Your task to perform on an android device: Clear the cart on costco.com. Search for "jbl flip 4" on costco.com, select the first entry, add it to the cart, then select checkout. Image 0: 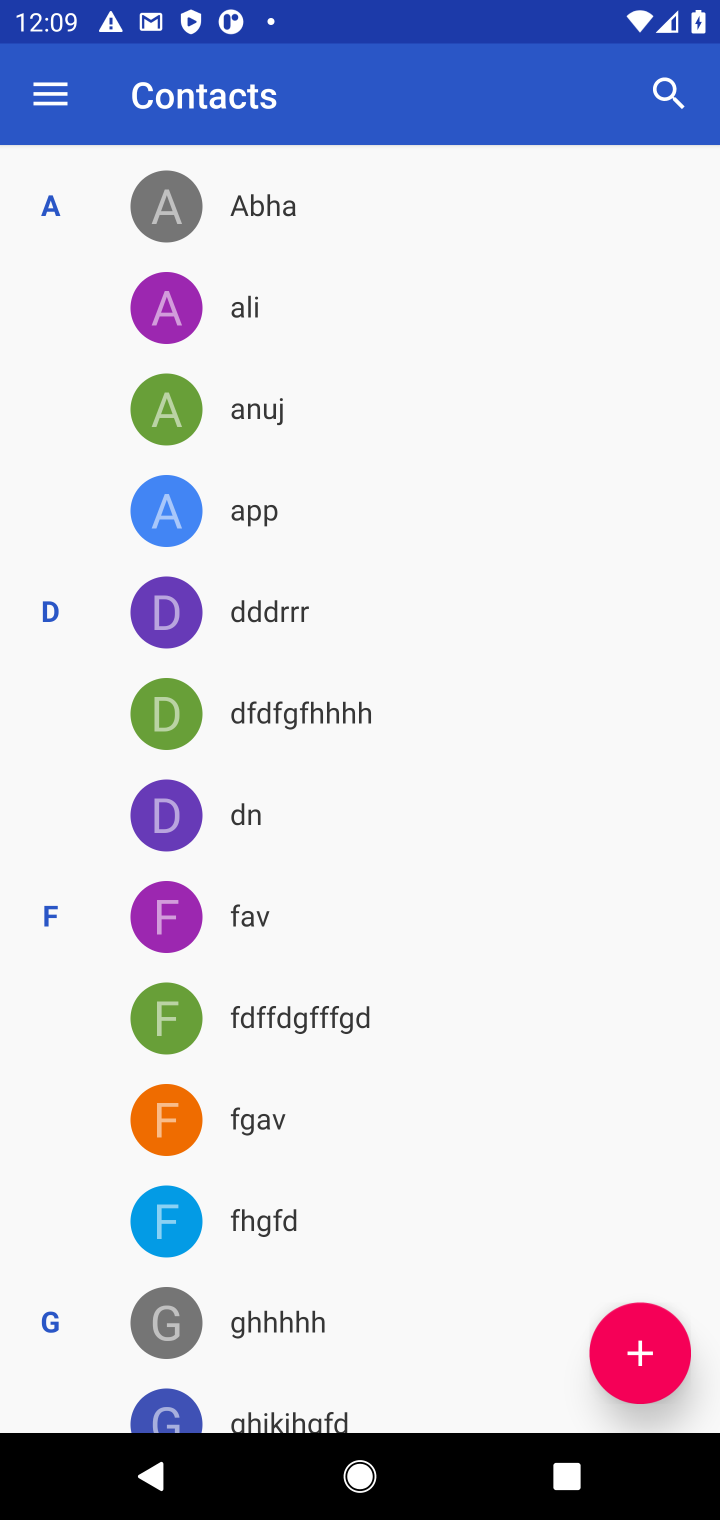
Step 0: press home button
Your task to perform on an android device: Clear the cart on costco.com. Search for "jbl flip 4" on costco.com, select the first entry, add it to the cart, then select checkout. Image 1: 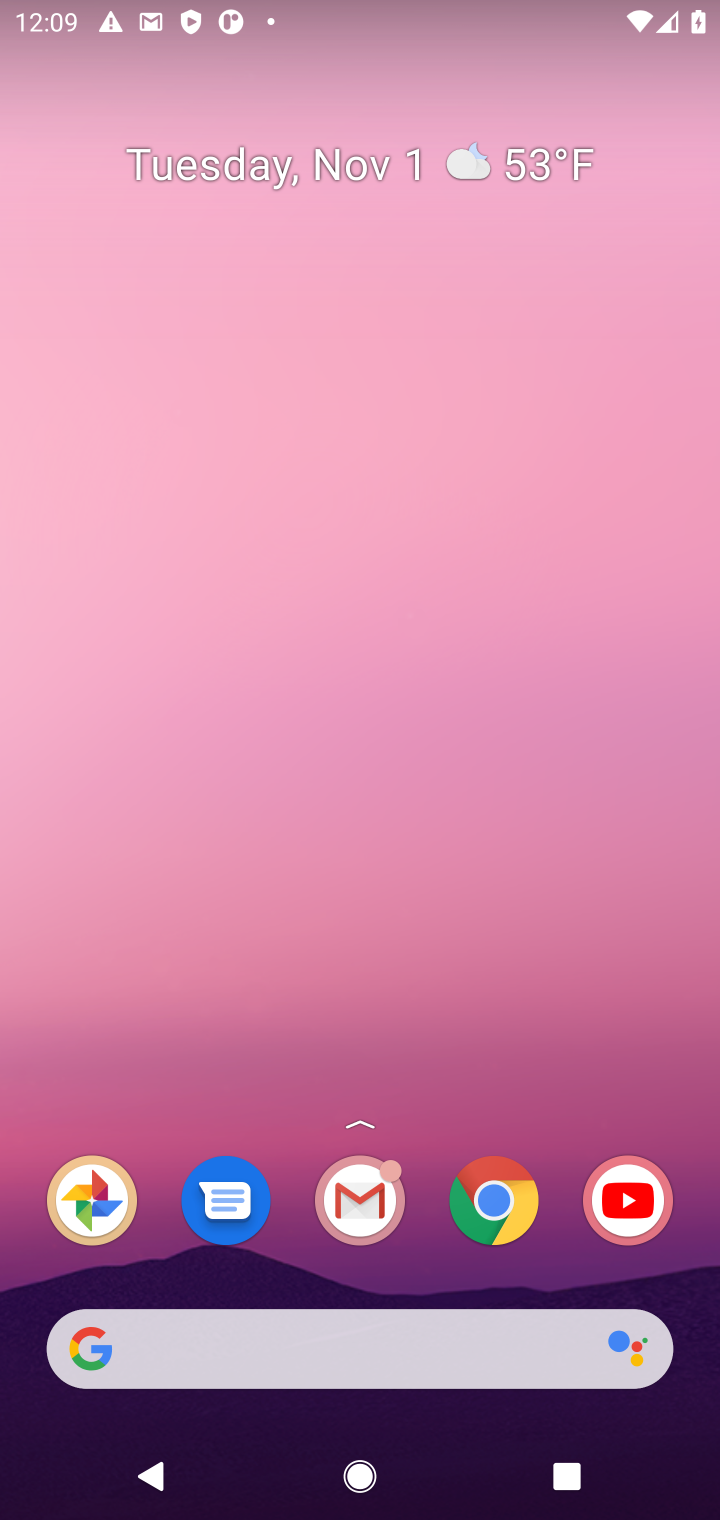
Step 1: click (498, 1203)
Your task to perform on an android device: Clear the cart on costco.com. Search for "jbl flip 4" on costco.com, select the first entry, add it to the cart, then select checkout. Image 2: 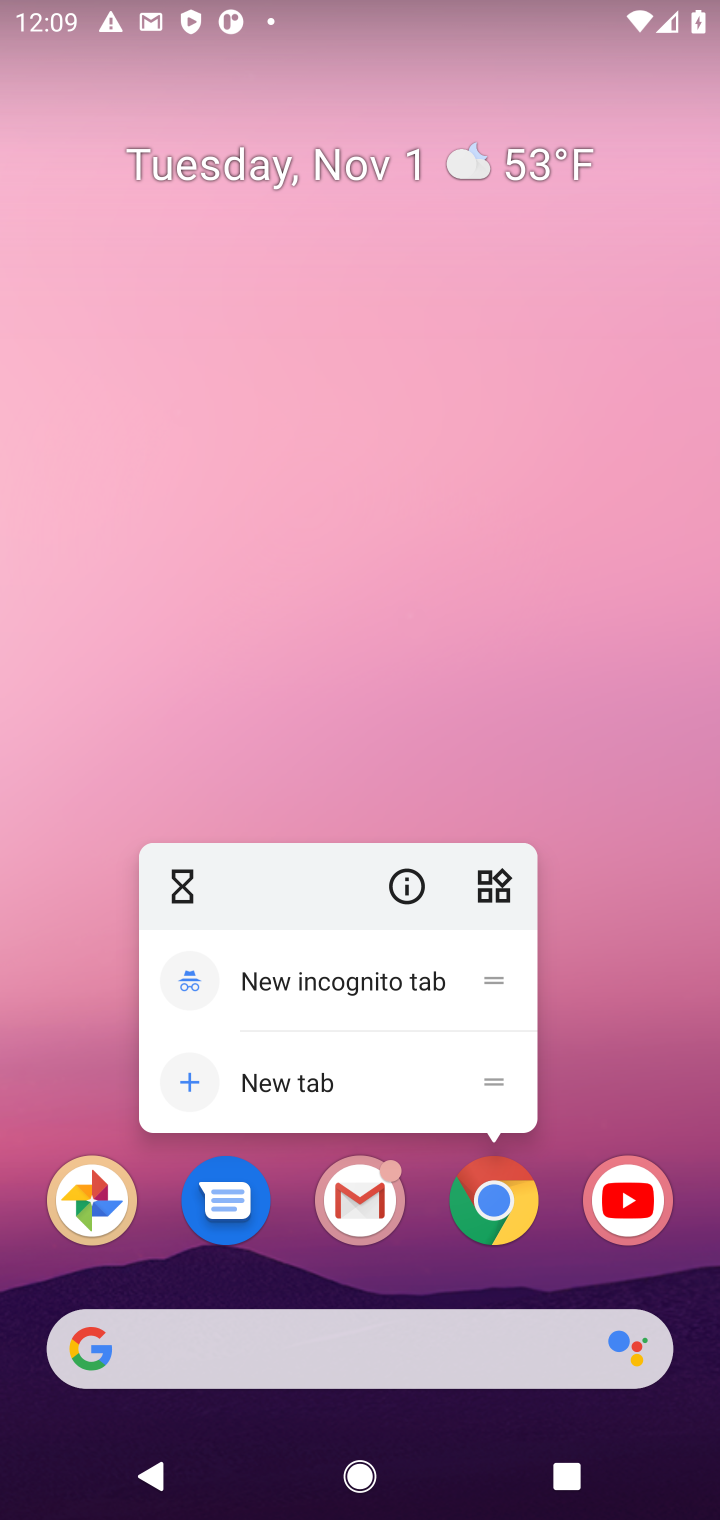
Step 2: click (490, 1213)
Your task to perform on an android device: Clear the cart on costco.com. Search for "jbl flip 4" on costco.com, select the first entry, add it to the cart, then select checkout. Image 3: 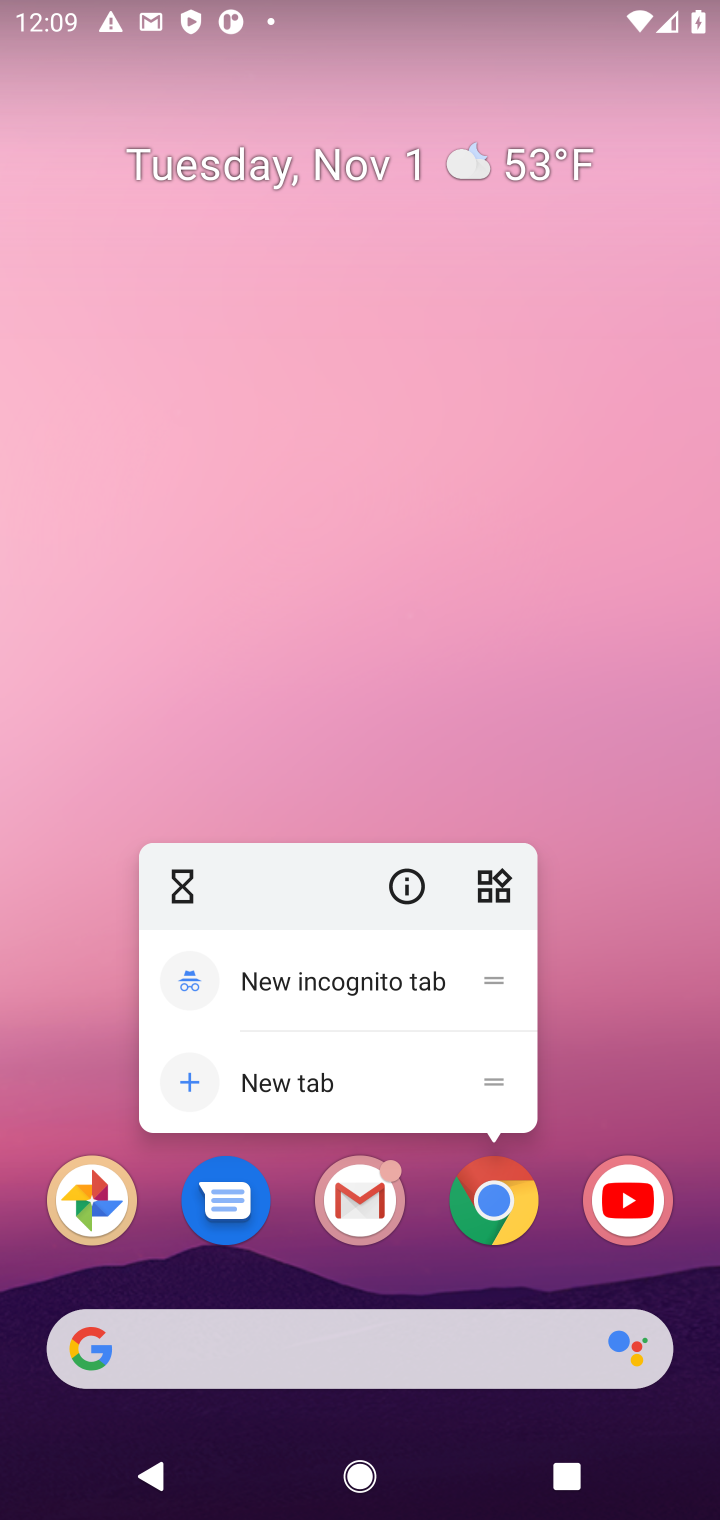
Step 3: click (504, 1241)
Your task to perform on an android device: Clear the cart on costco.com. Search for "jbl flip 4" on costco.com, select the first entry, add it to the cart, then select checkout. Image 4: 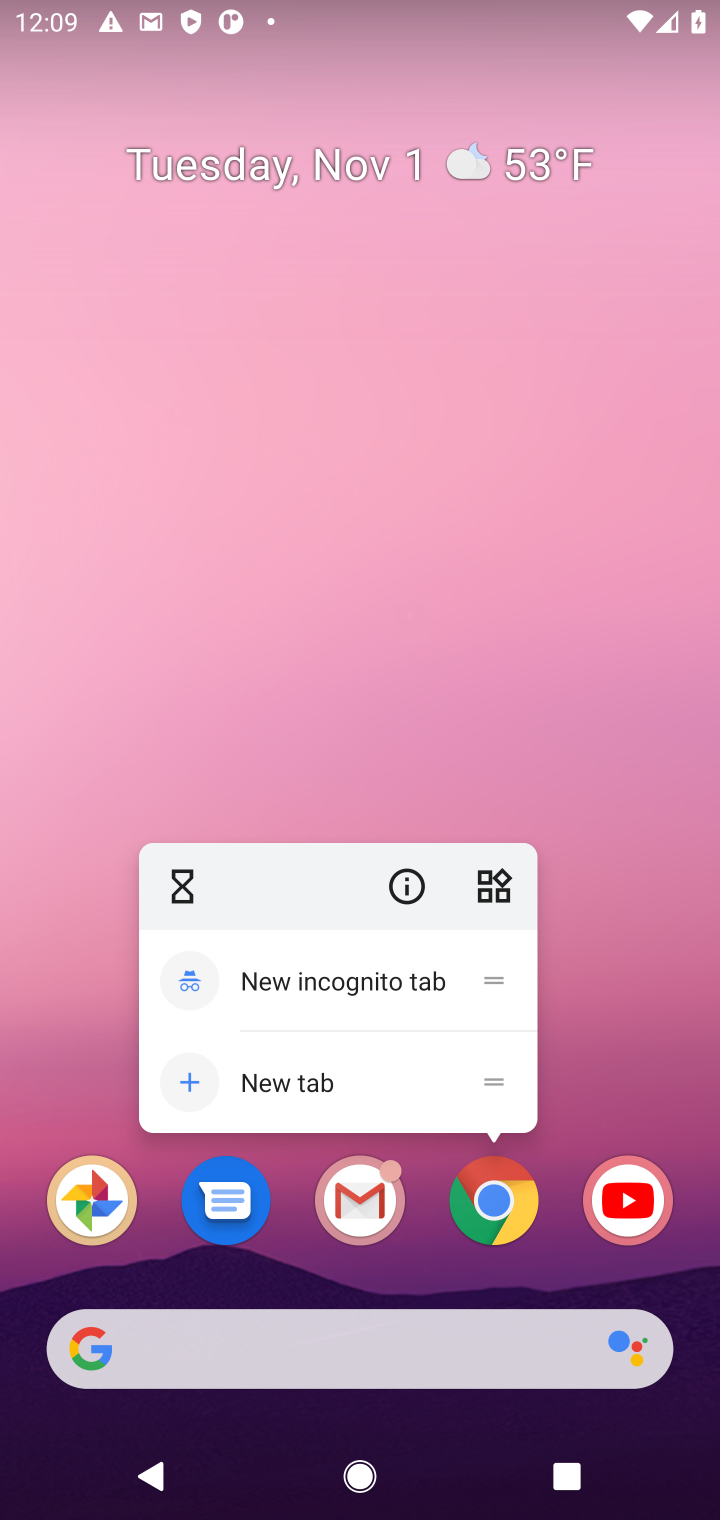
Step 4: click (506, 1221)
Your task to perform on an android device: Clear the cart on costco.com. Search for "jbl flip 4" on costco.com, select the first entry, add it to the cart, then select checkout. Image 5: 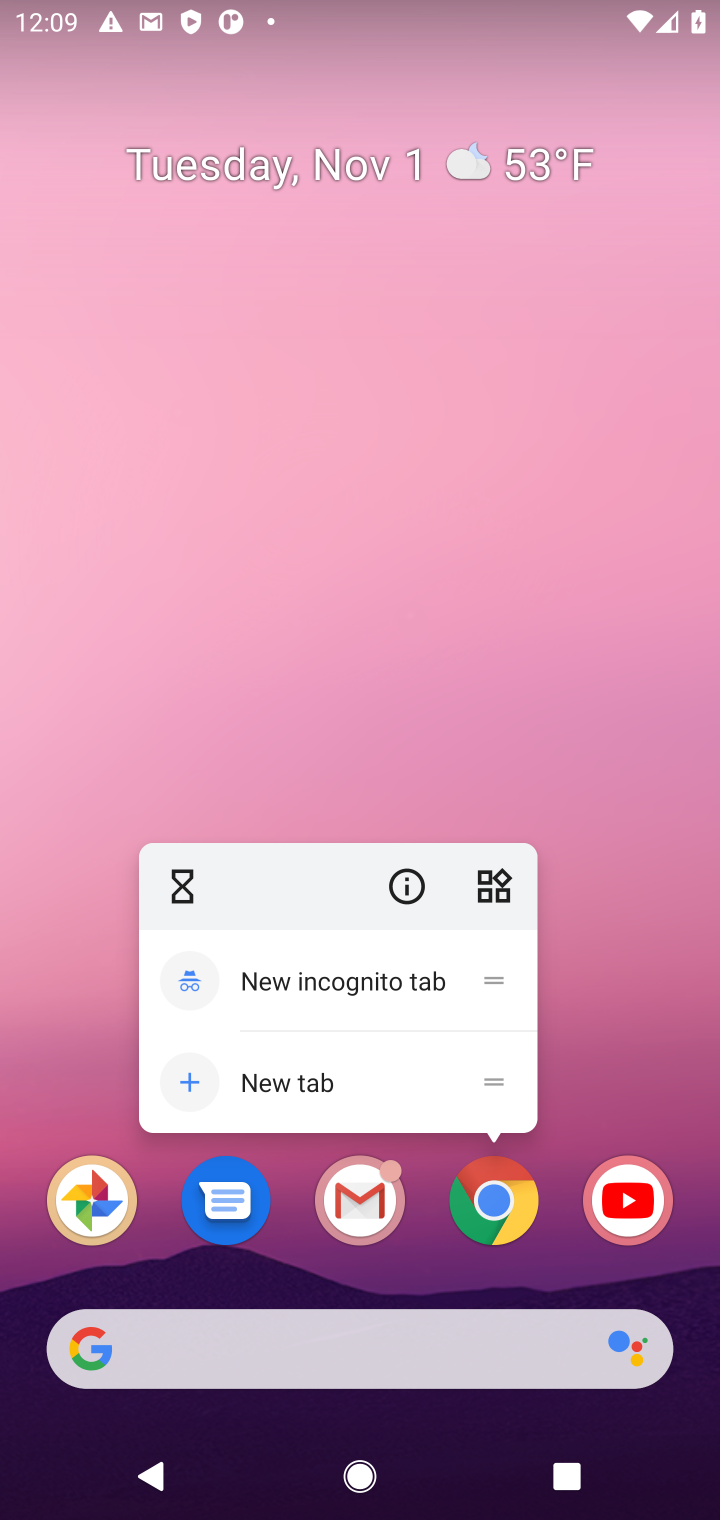
Step 5: click (496, 1205)
Your task to perform on an android device: Clear the cart on costco.com. Search for "jbl flip 4" on costco.com, select the first entry, add it to the cart, then select checkout. Image 6: 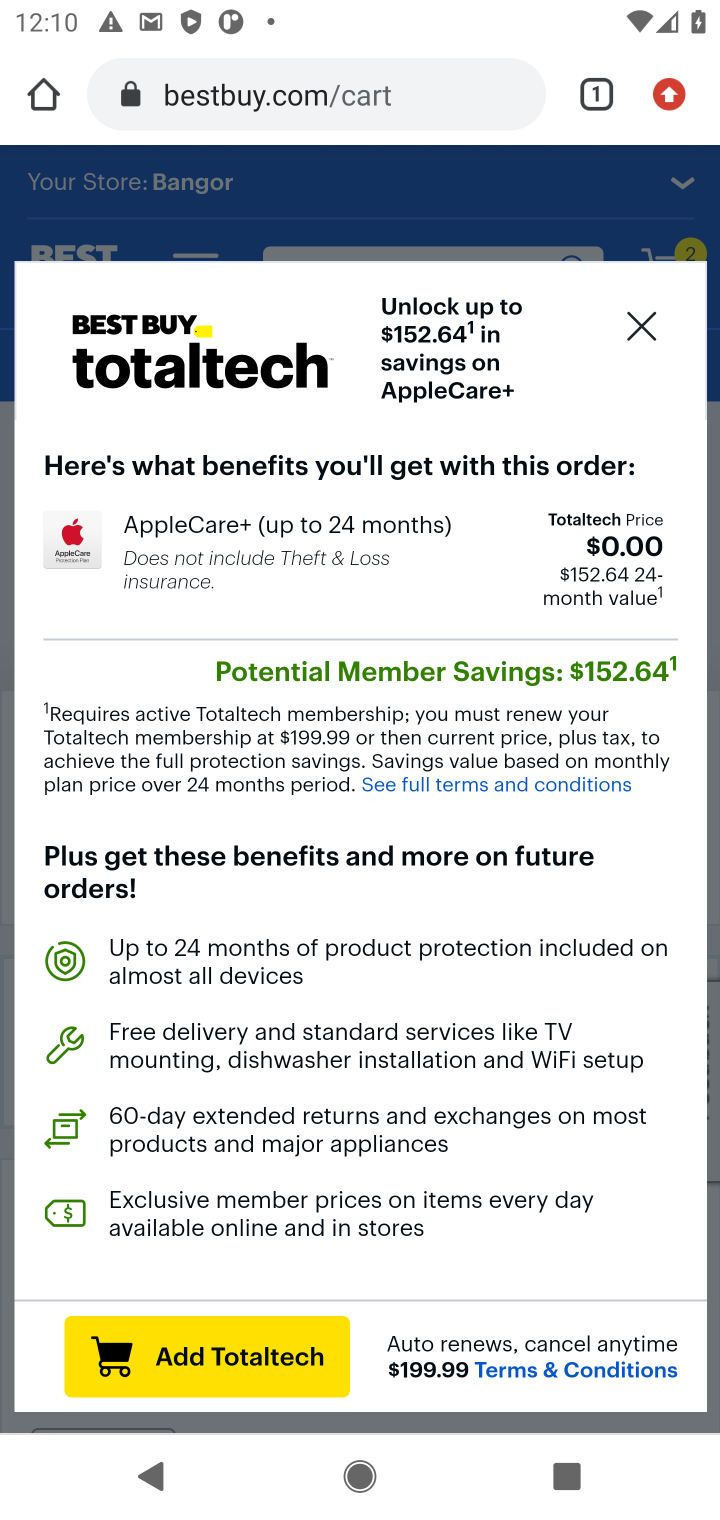
Step 6: click (301, 120)
Your task to perform on an android device: Clear the cart on costco.com. Search for "jbl flip 4" on costco.com, select the first entry, add it to the cart, then select checkout. Image 7: 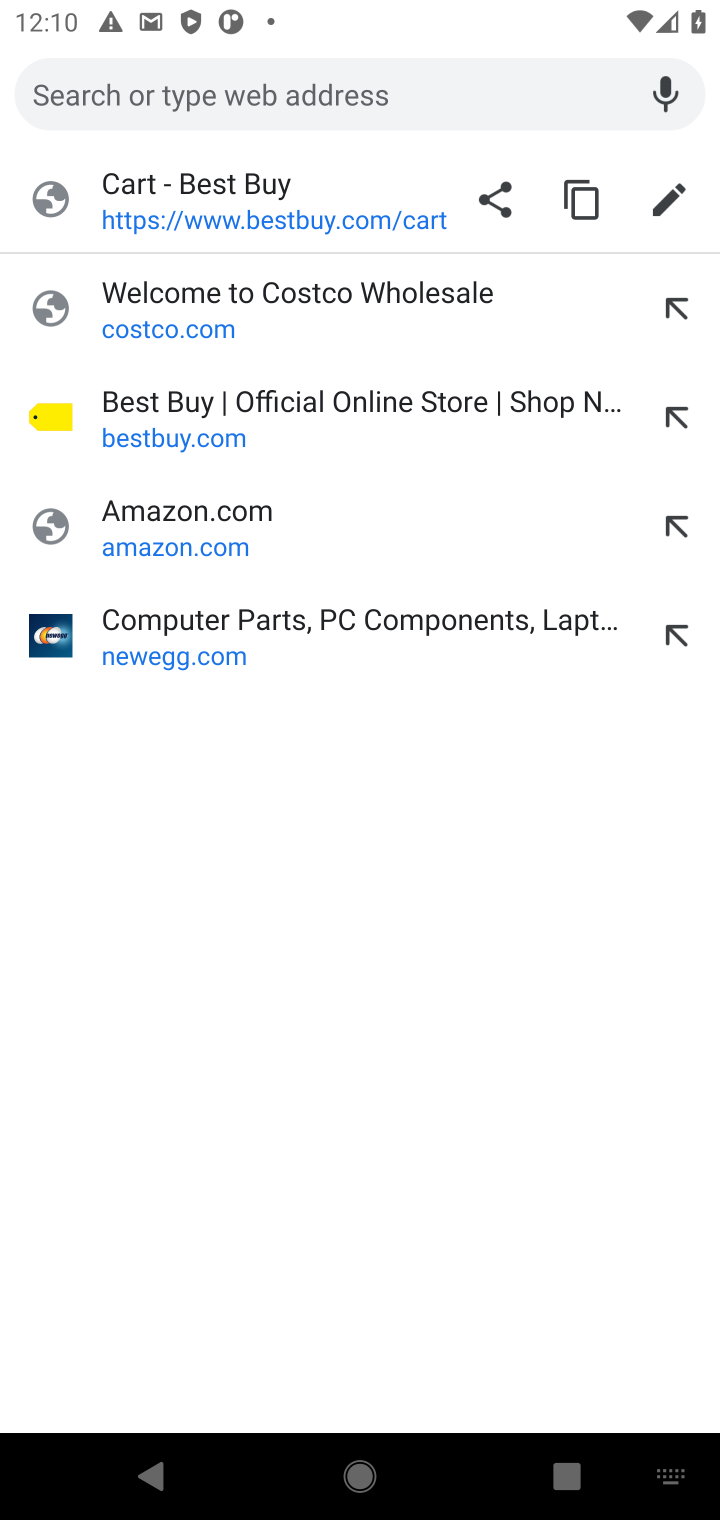
Step 7: click (375, 316)
Your task to perform on an android device: Clear the cart on costco.com. Search for "jbl flip 4" on costco.com, select the first entry, add it to the cart, then select checkout. Image 8: 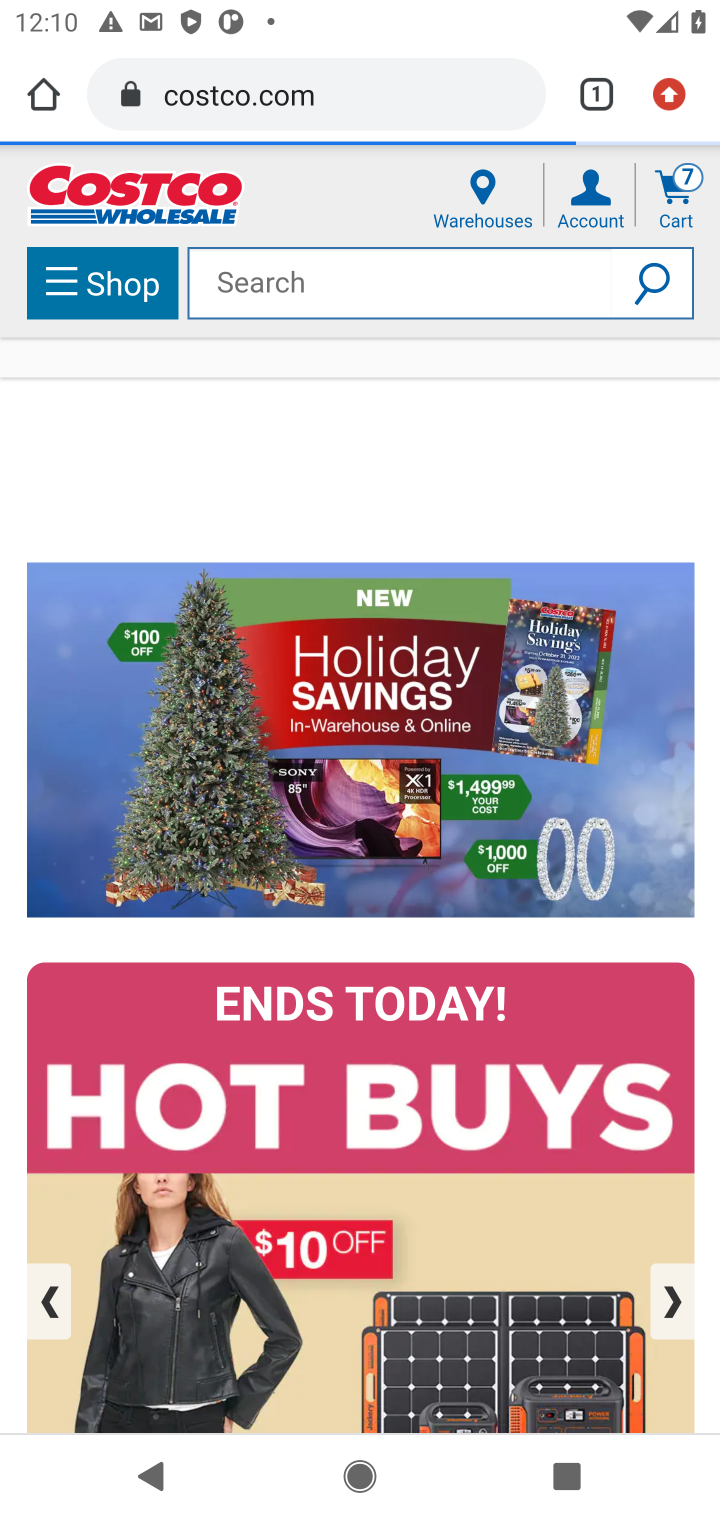
Step 8: click (692, 192)
Your task to perform on an android device: Clear the cart on costco.com. Search for "jbl flip 4" on costco.com, select the first entry, add it to the cart, then select checkout. Image 9: 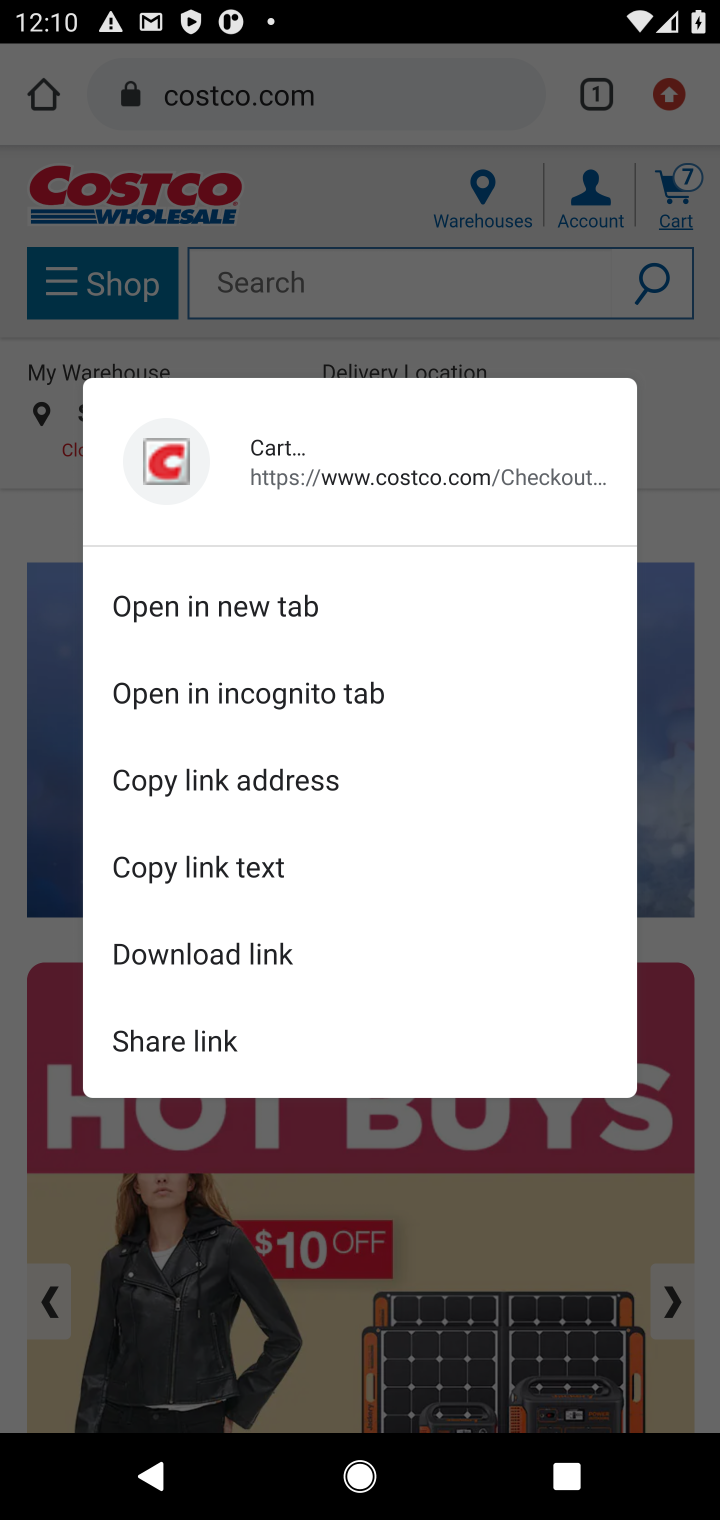
Step 9: click (674, 197)
Your task to perform on an android device: Clear the cart on costco.com. Search for "jbl flip 4" on costco.com, select the first entry, add it to the cart, then select checkout. Image 10: 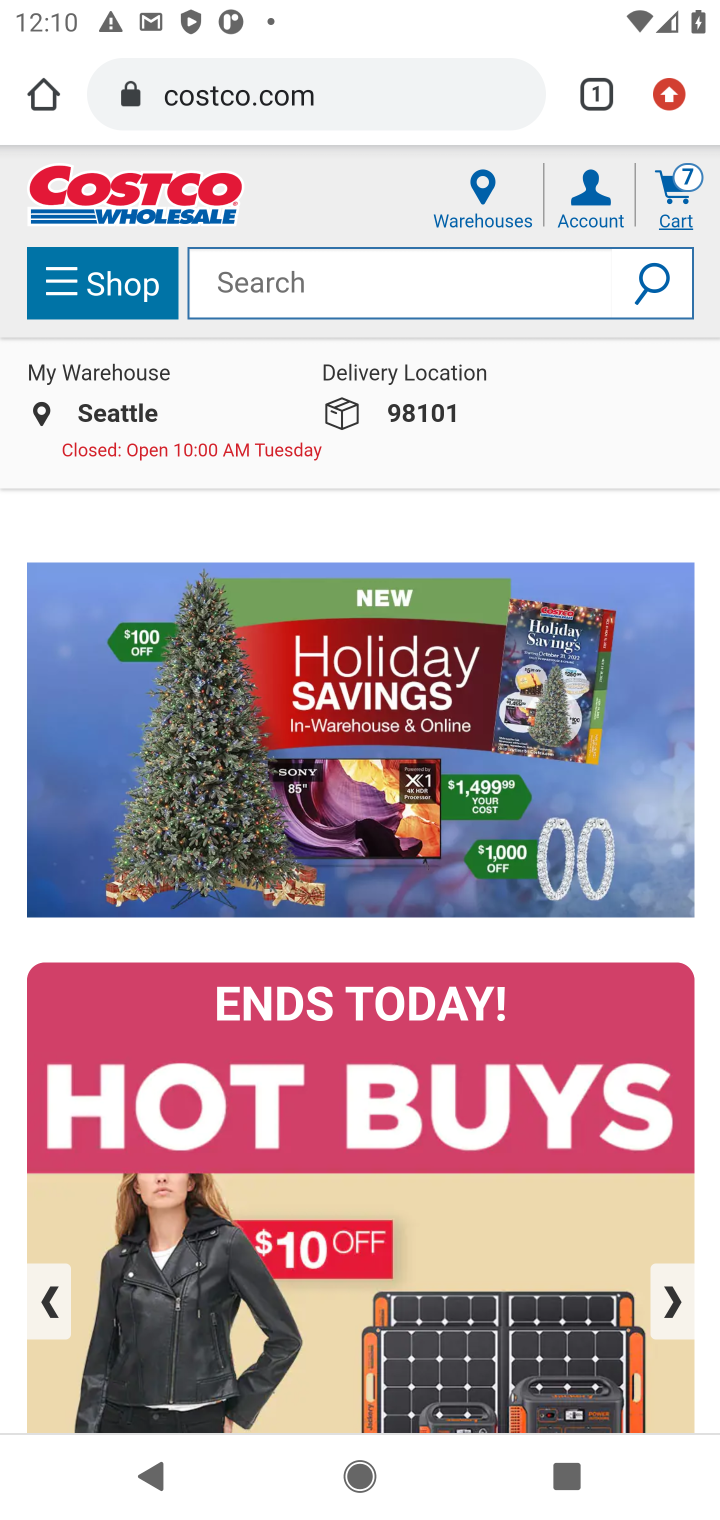
Step 10: click (676, 195)
Your task to perform on an android device: Clear the cart on costco.com. Search for "jbl flip 4" on costco.com, select the first entry, add it to the cart, then select checkout. Image 11: 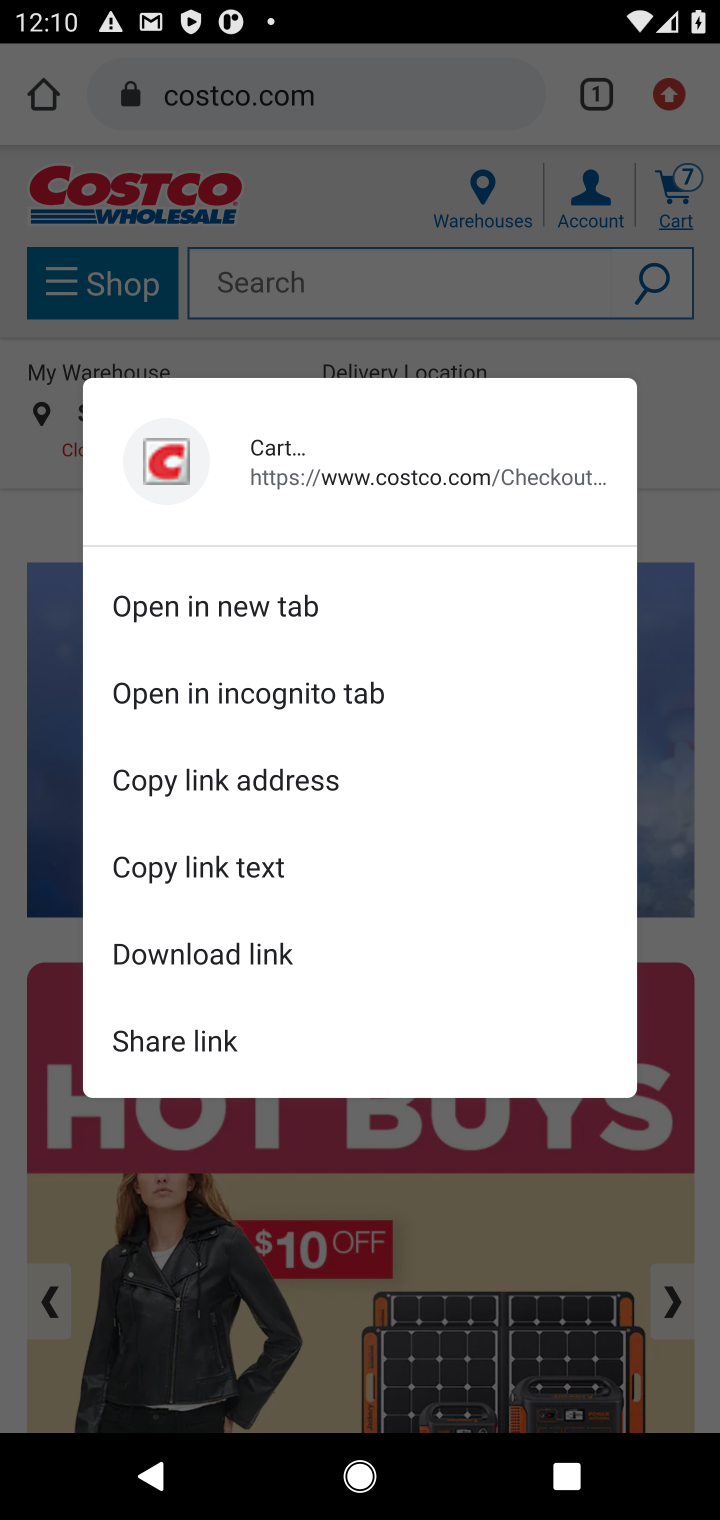
Step 11: click (676, 195)
Your task to perform on an android device: Clear the cart on costco.com. Search for "jbl flip 4" on costco.com, select the first entry, add it to the cart, then select checkout. Image 12: 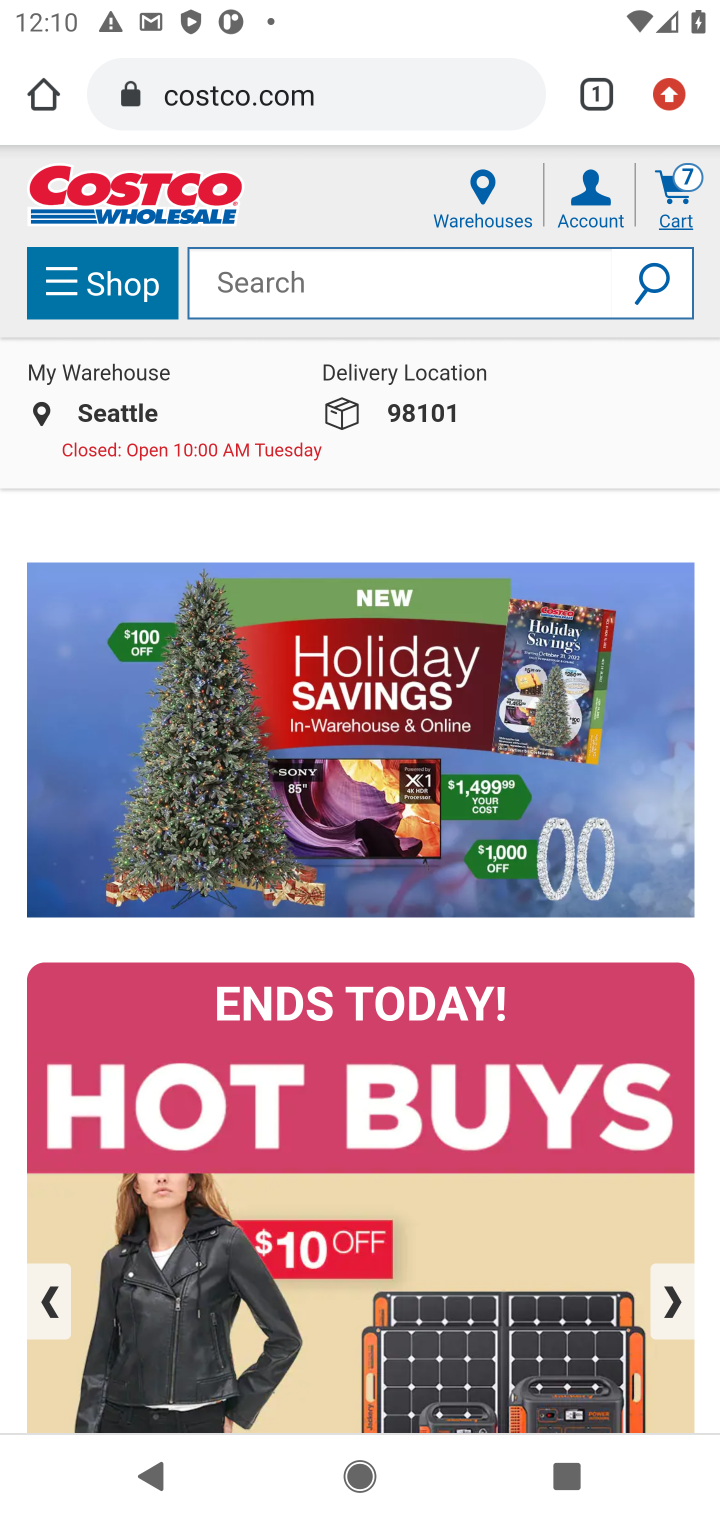
Step 12: click (672, 218)
Your task to perform on an android device: Clear the cart on costco.com. Search for "jbl flip 4" on costco.com, select the first entry, add it to the cart, then select checkout. Image 13: 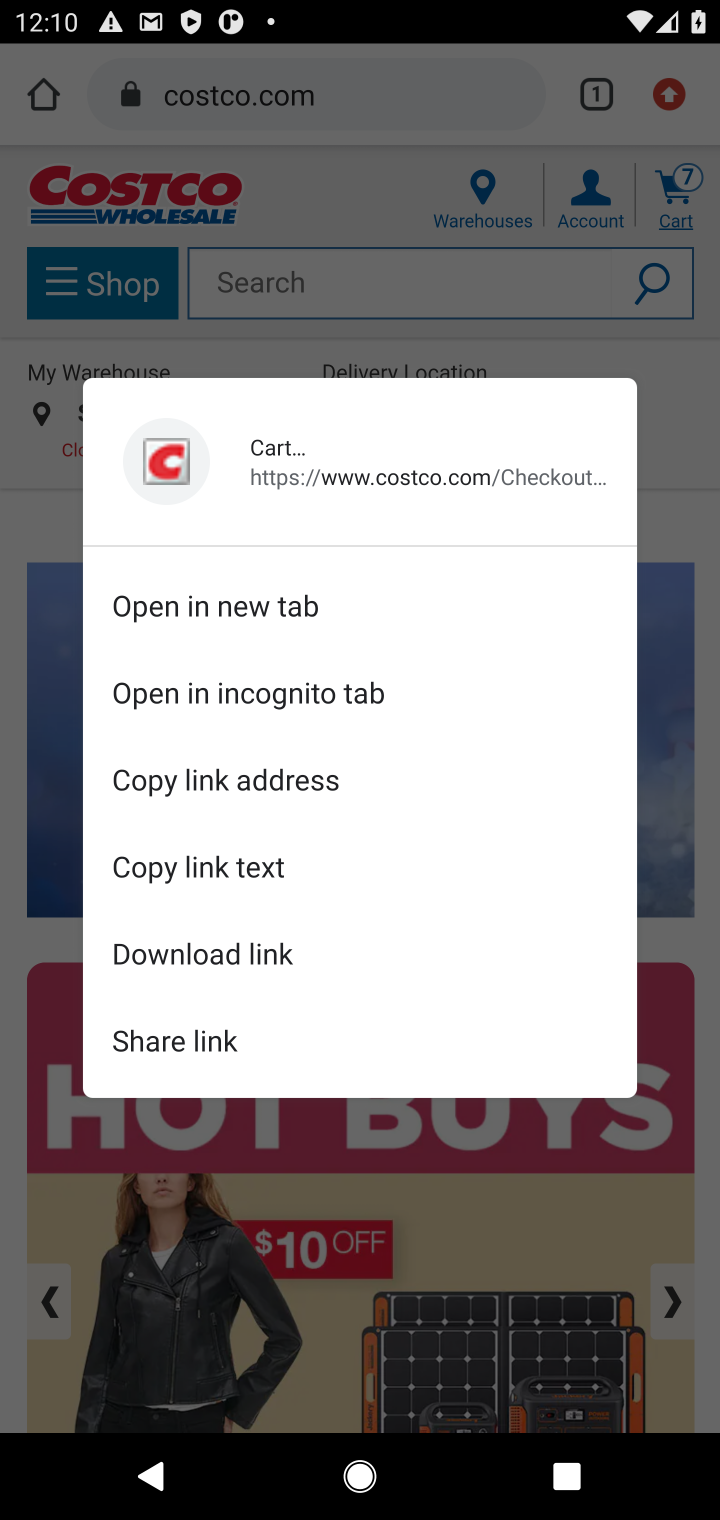
Step 13: click (641, 440)
Your task to perform on an android device: Clear the cart on costco.com. Search for "jbl flip 4" on costco.com, select the first entry, add it to the cart, then select checkout. Image 14: 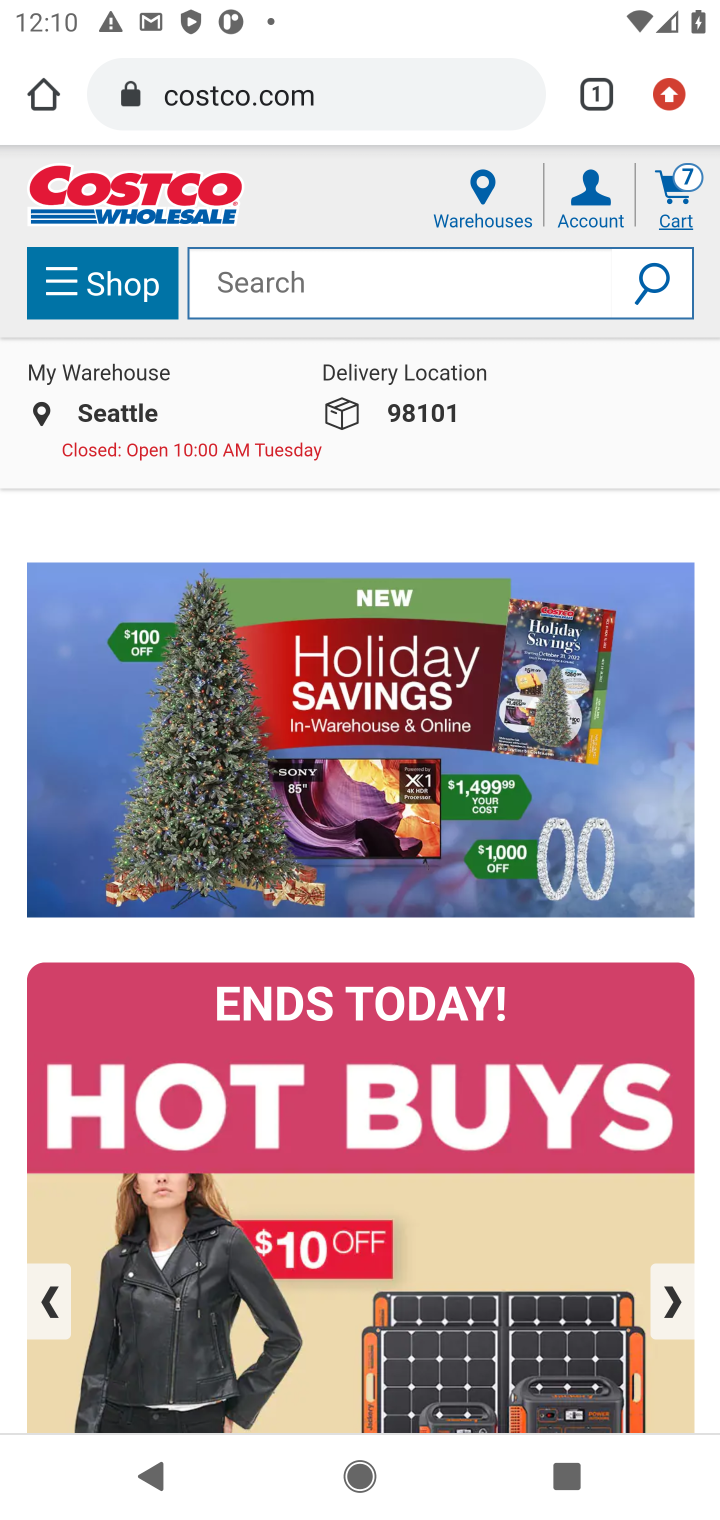
Step 14: click (693, 190)
Your task to perform on an android device: Clear the cart on costco.com. Search for "jbl flip 4" on costco.com, select the first entry, add it to the cart, then select checkout. Image 15: 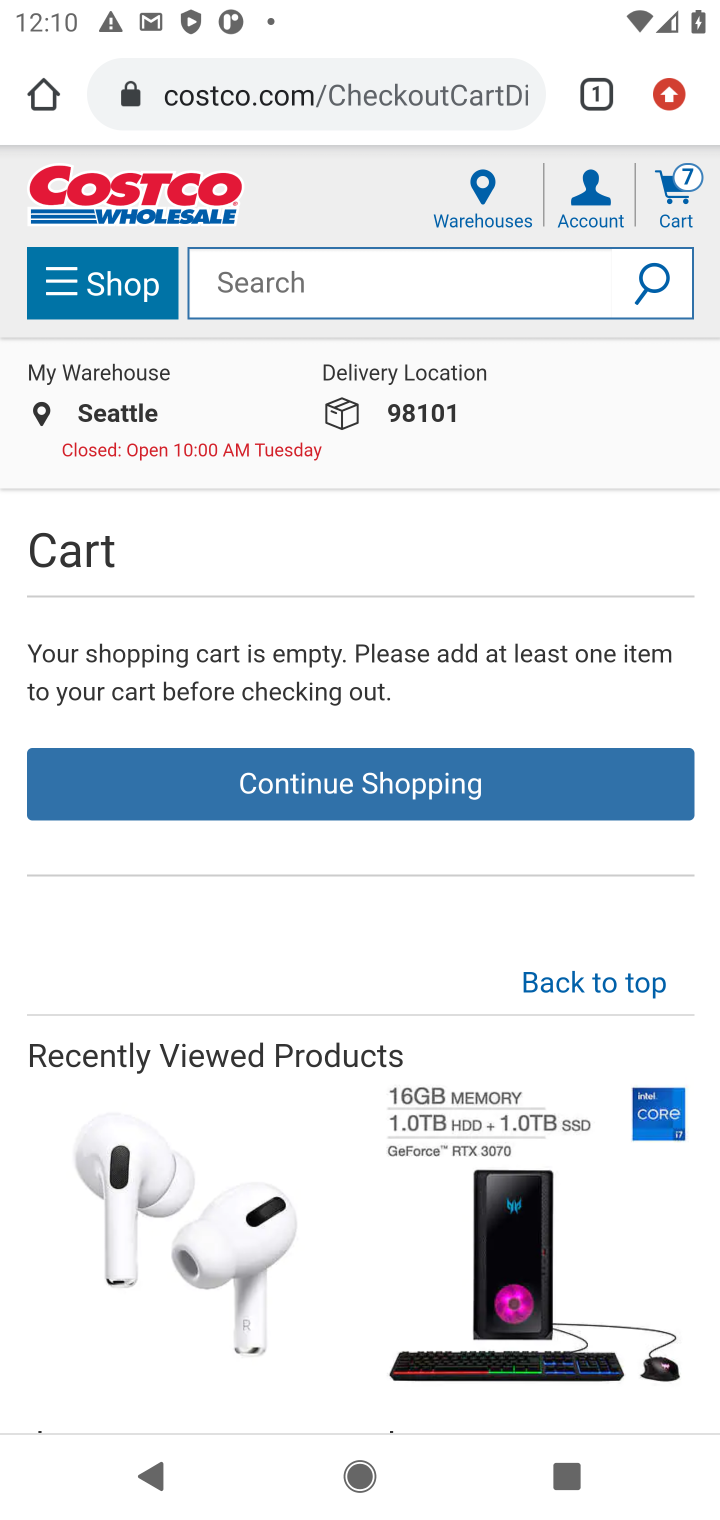
Step 15: drag from (442, 1159) to (456, 481)
Your task to perform on an android device: Clear the cart on costco.com. Search for "jbl flip 4" on costco.com, select the first entry, add it to the cart, then select checkout. Image 16: 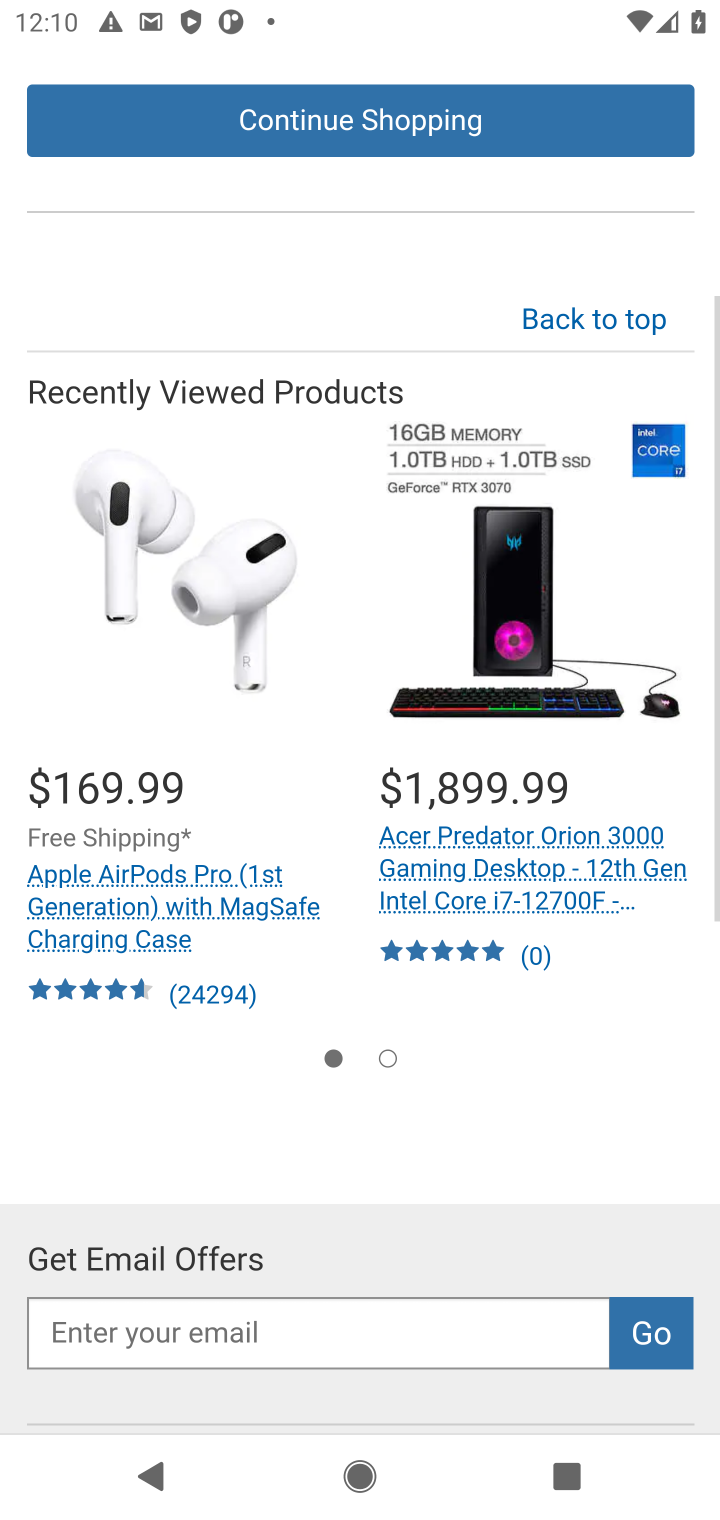
Step 16: drag from (635, 659) to (19, 641)
Your task to perform on an android device: Clear the cart on costco.com. Search for "jbl flip 4" on costco.com, select the first entry, add it to the cart, then select checkout. Image 17: 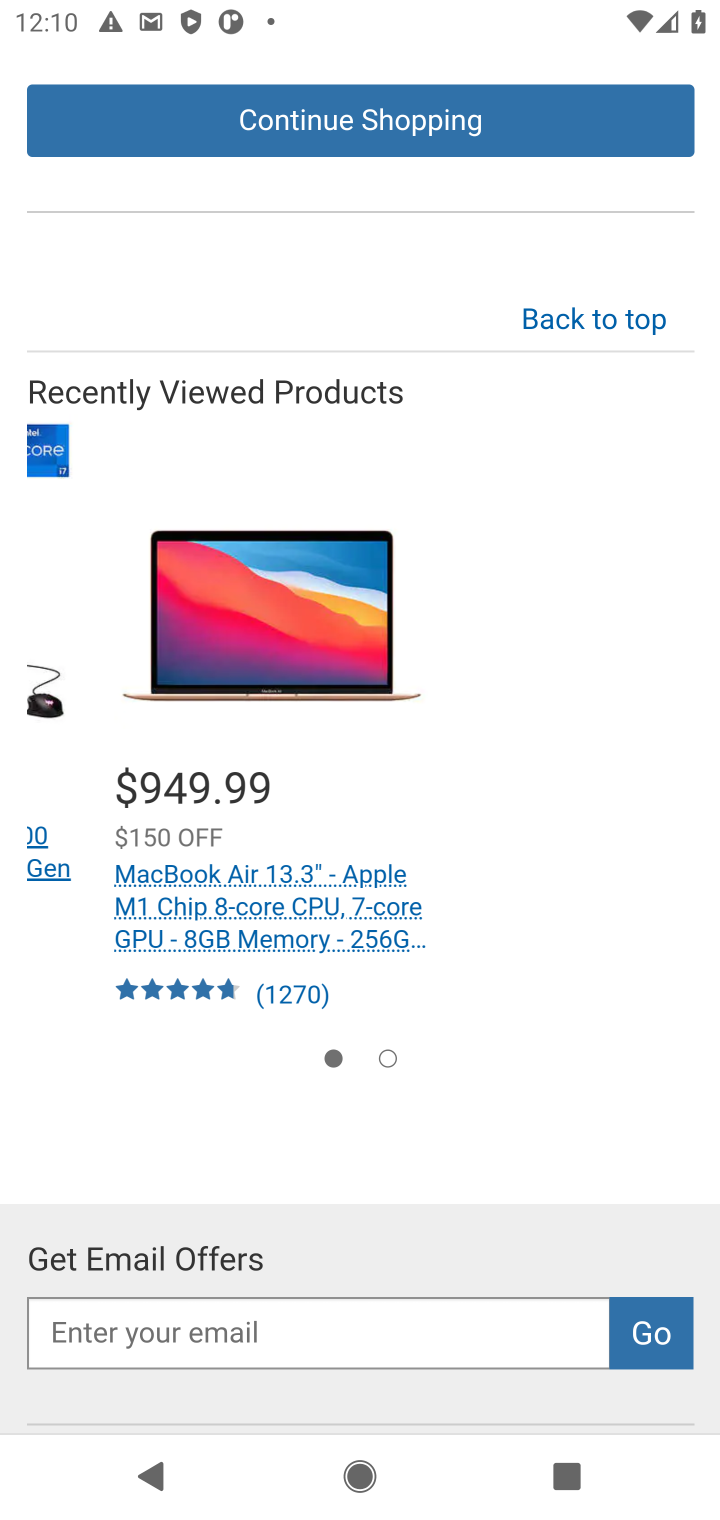
Step 17: drag from (671, 691) to (4, 661)
Your task to perform on an android device: Clear the cart on costco.com. Search for "jbl flip 4" on costco.com, select the first entry, add it to the cart, then select checkout. Image 18: 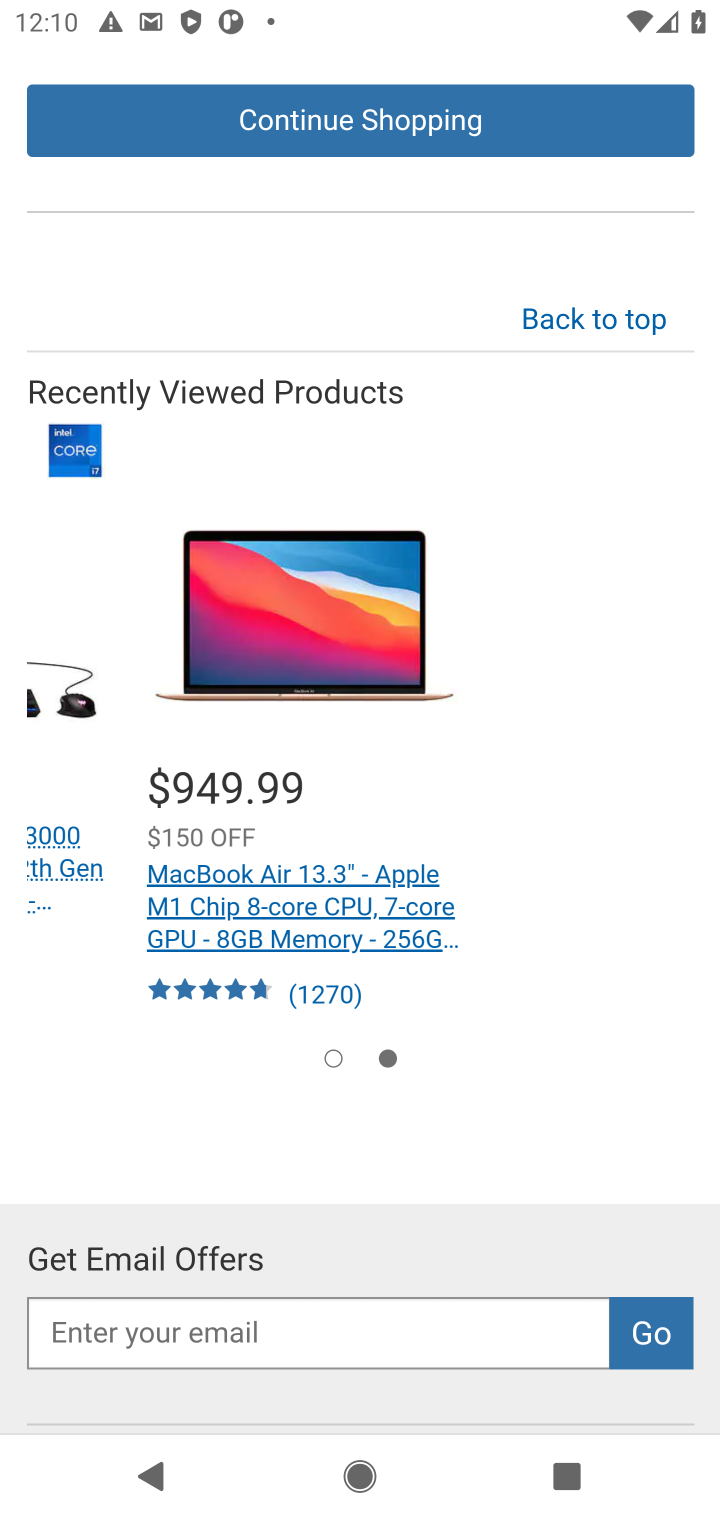
Step 18: drag from (441, 334) to (436, 1306)
Your task to perform on an android device: Clear the cart on costco.com. Search for "jbl flip 4" on costco.com, select the first entry, add it to the cart, then select checkout. Image 19: 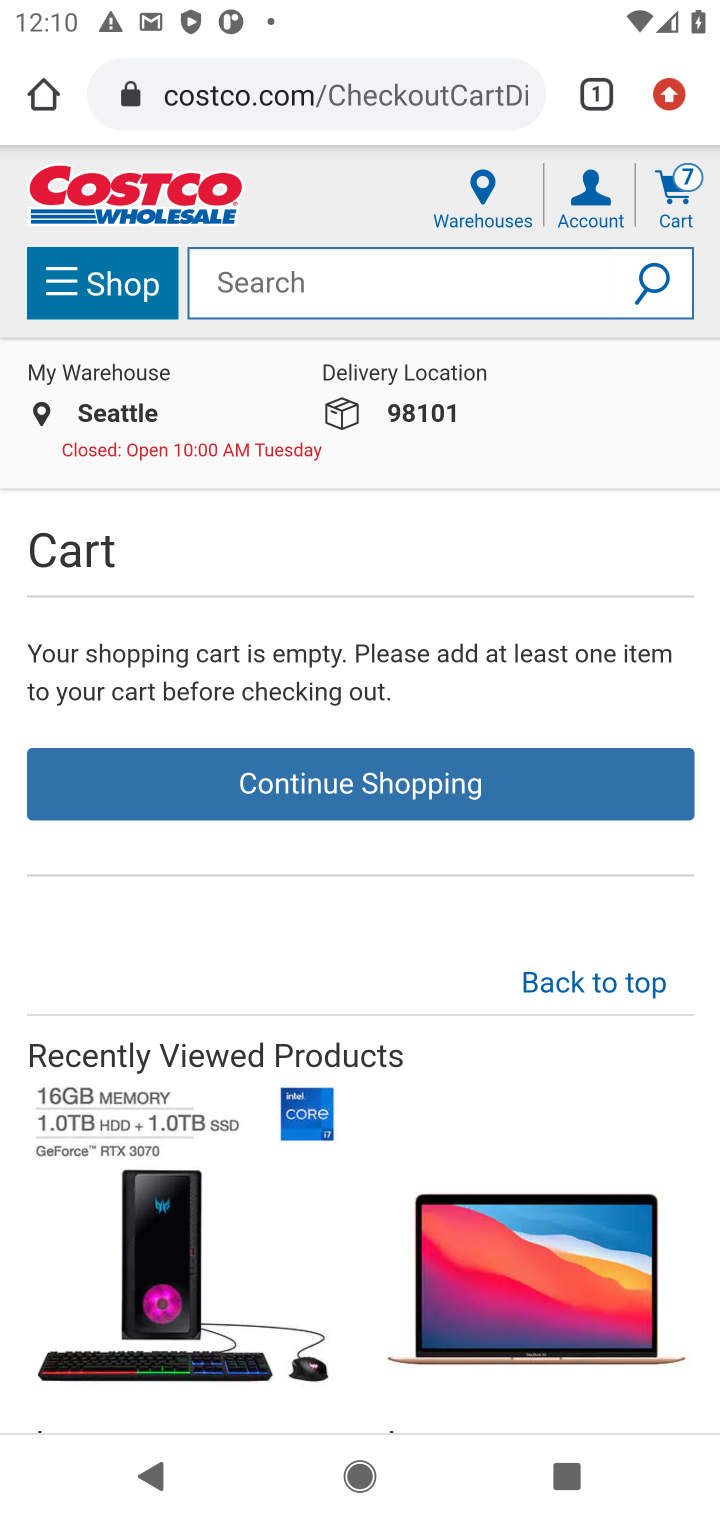
Step 19: click (682, 219)
Your task to perform on an android device: Clear the cart on costco.com. Search for "jbl flip 4" on costco.com, select the first entry, add it to the cart, then select checkout. Image 20: 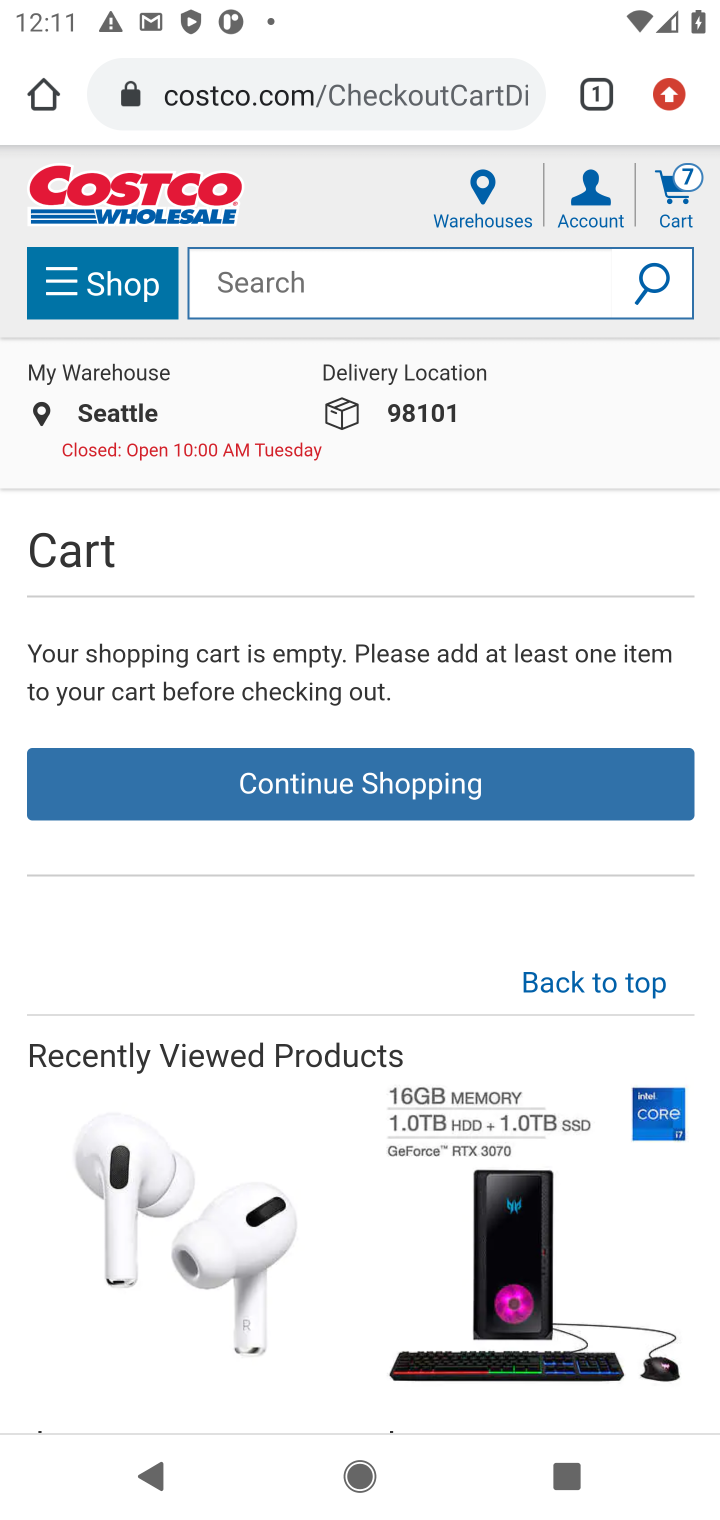
Step 20: click (228, 1204)
Your task to perform on an android device: Clear the cart on costco.com. Search for "jbl flip 4" on costco.com, select the first entry, add it to the cart, then select checkout. Image 21: 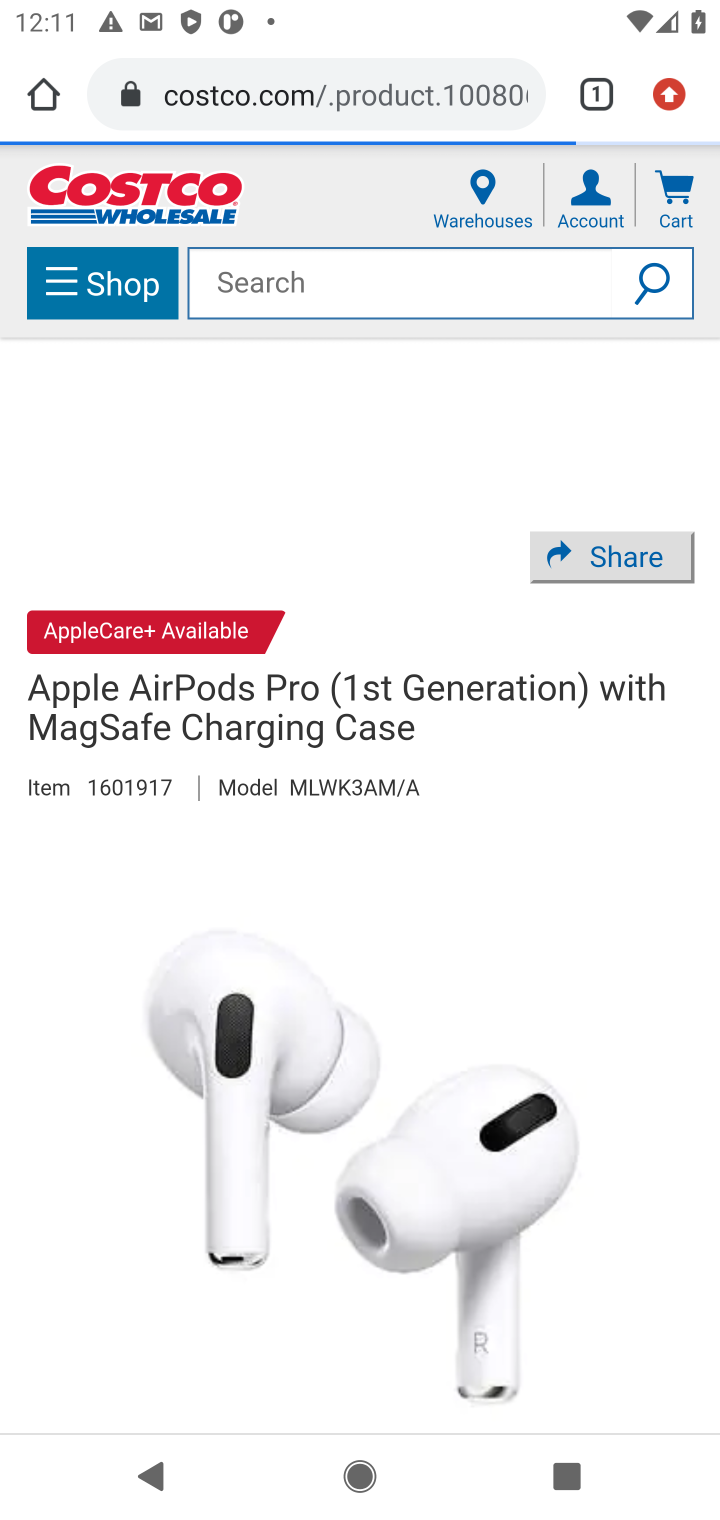
Step 21: drag from (226, 1197) to (256, 323)
Your task to perform on an android device: Clear the cart on costco.com. Search for "jbl flip 4" on costco.com, select the first entry, add it to the cart, then select checkout. Image 22: 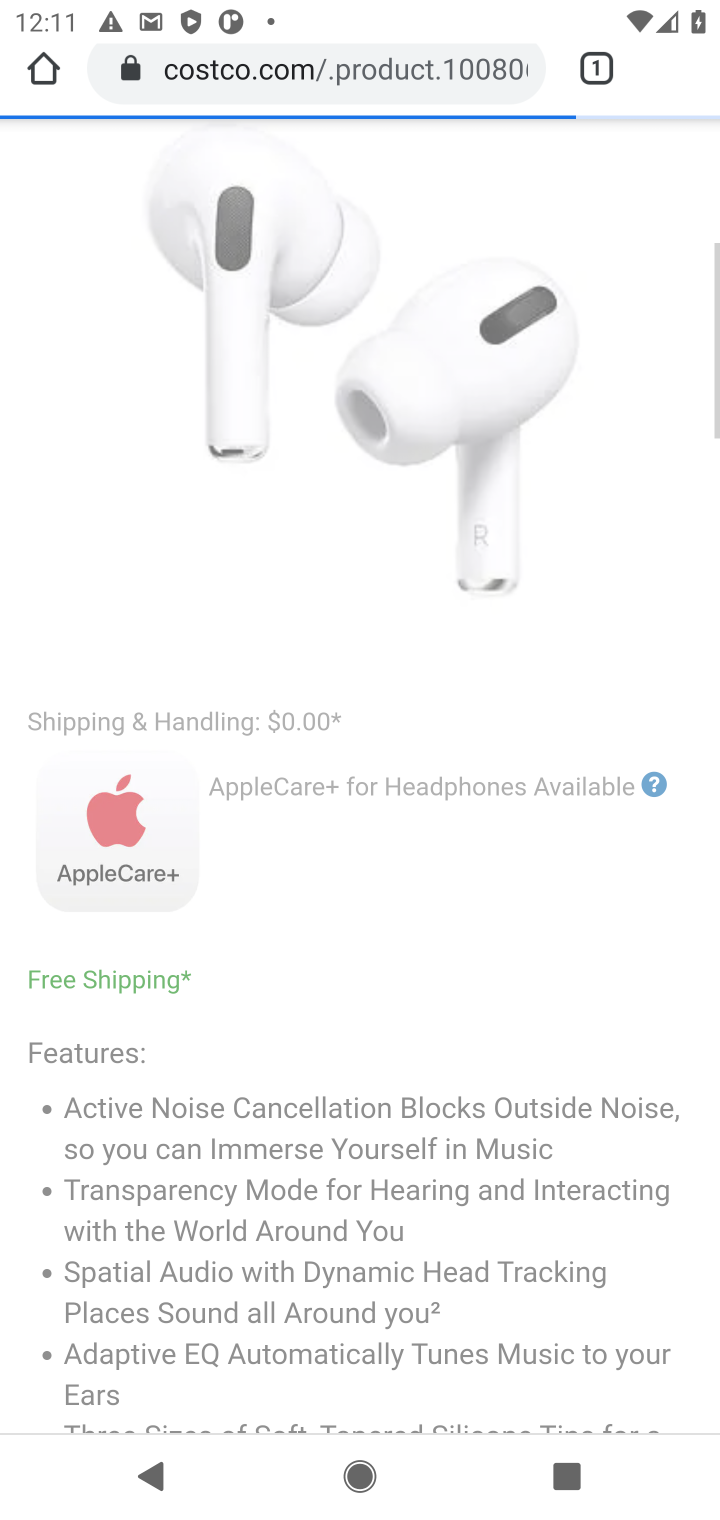
Step 22: drag from (302, 1136) to (474, 185)
Your task to perform on an android device: Clear the cart on costco.com. Search for "jbl flip 4" on costco.com, select the first entry, add it to the cart, then select checkout. Image 23: 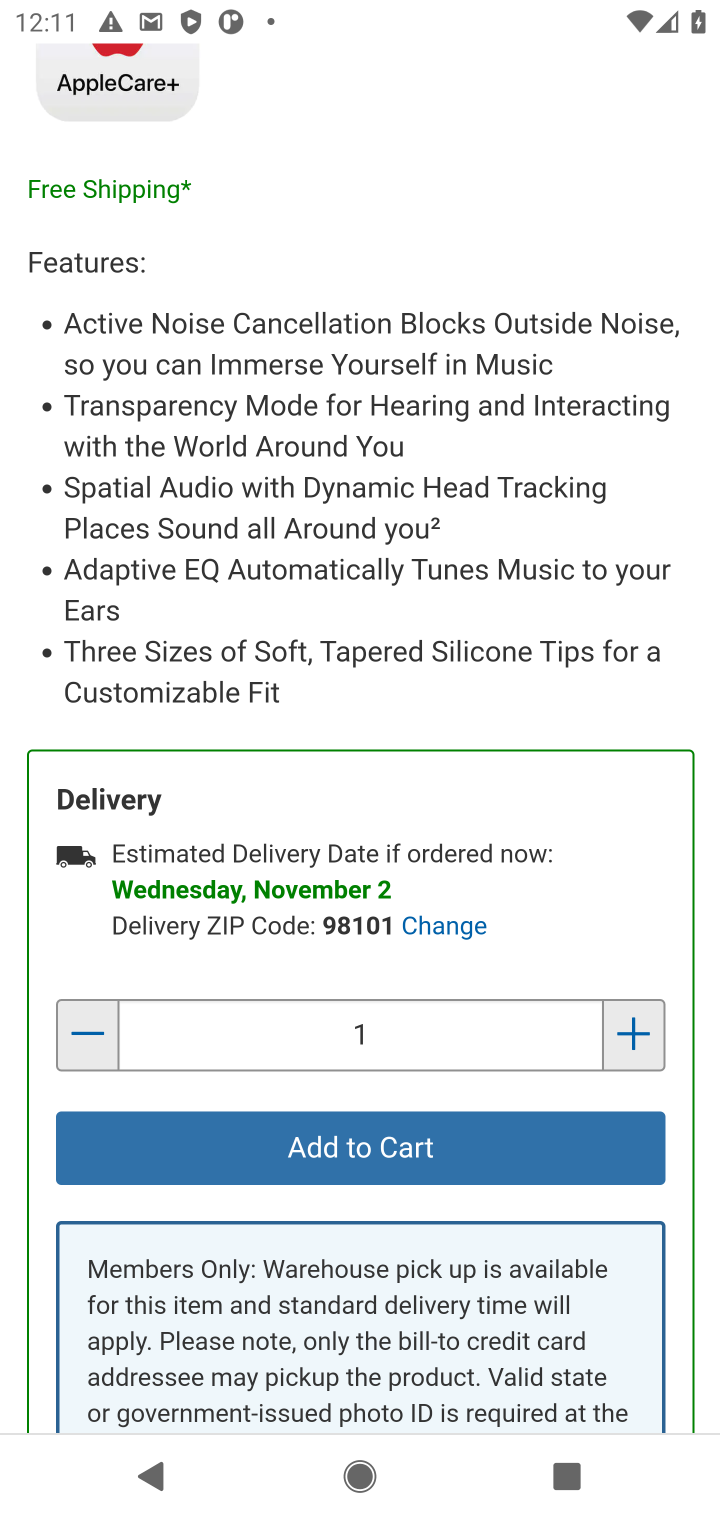
Step 23: click (80, 1028)
Your task to perform on an android device: Clear the cart on costco.com. Search for "jbl flip 4" on costco.com, select the first entry, add it to the cart, then select checkout. Image 24: 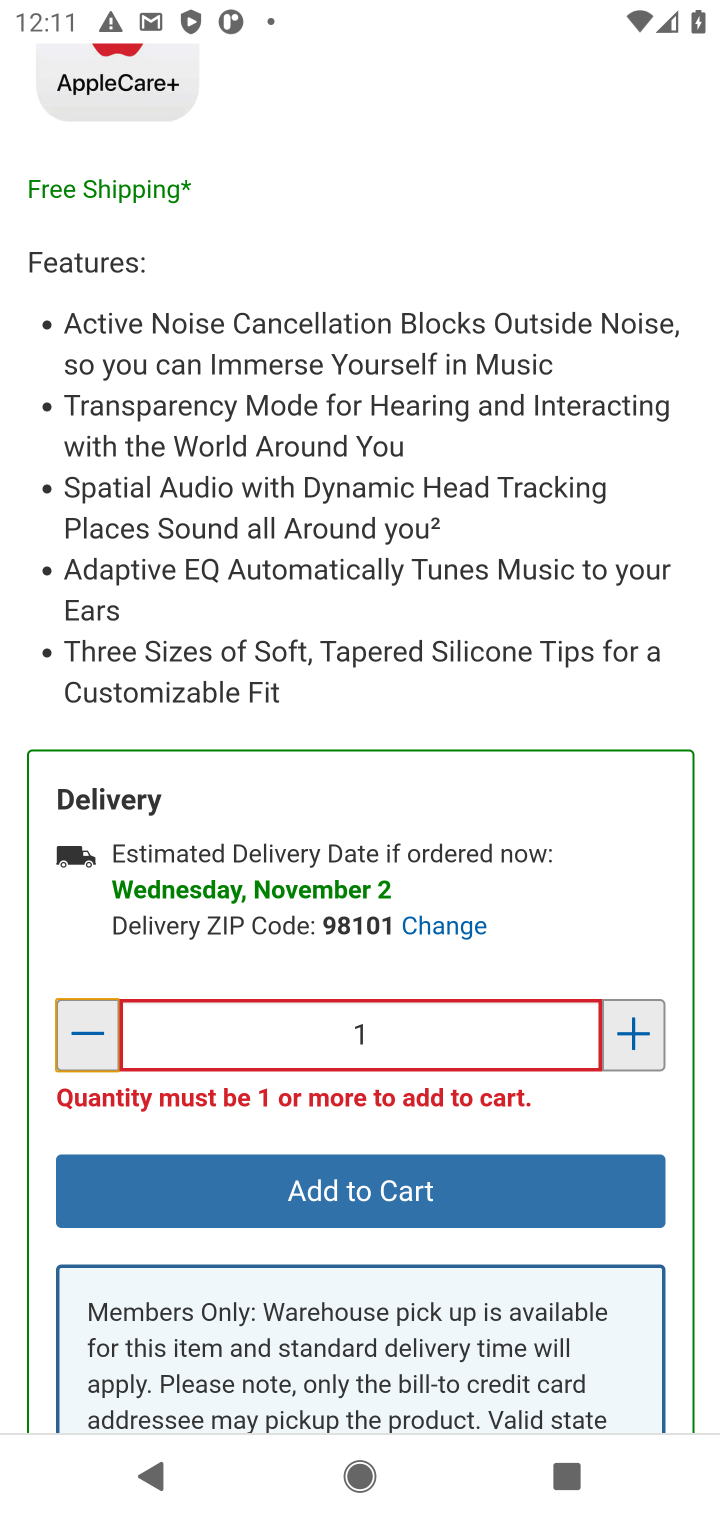
Step 24: click (80, 1028)
Your task to perform on an android device: Clear the cart on costco.com. Search for "jbl flip 4" on costco.com, select the first entry, add it to the cart, then select checkout. Image 25: 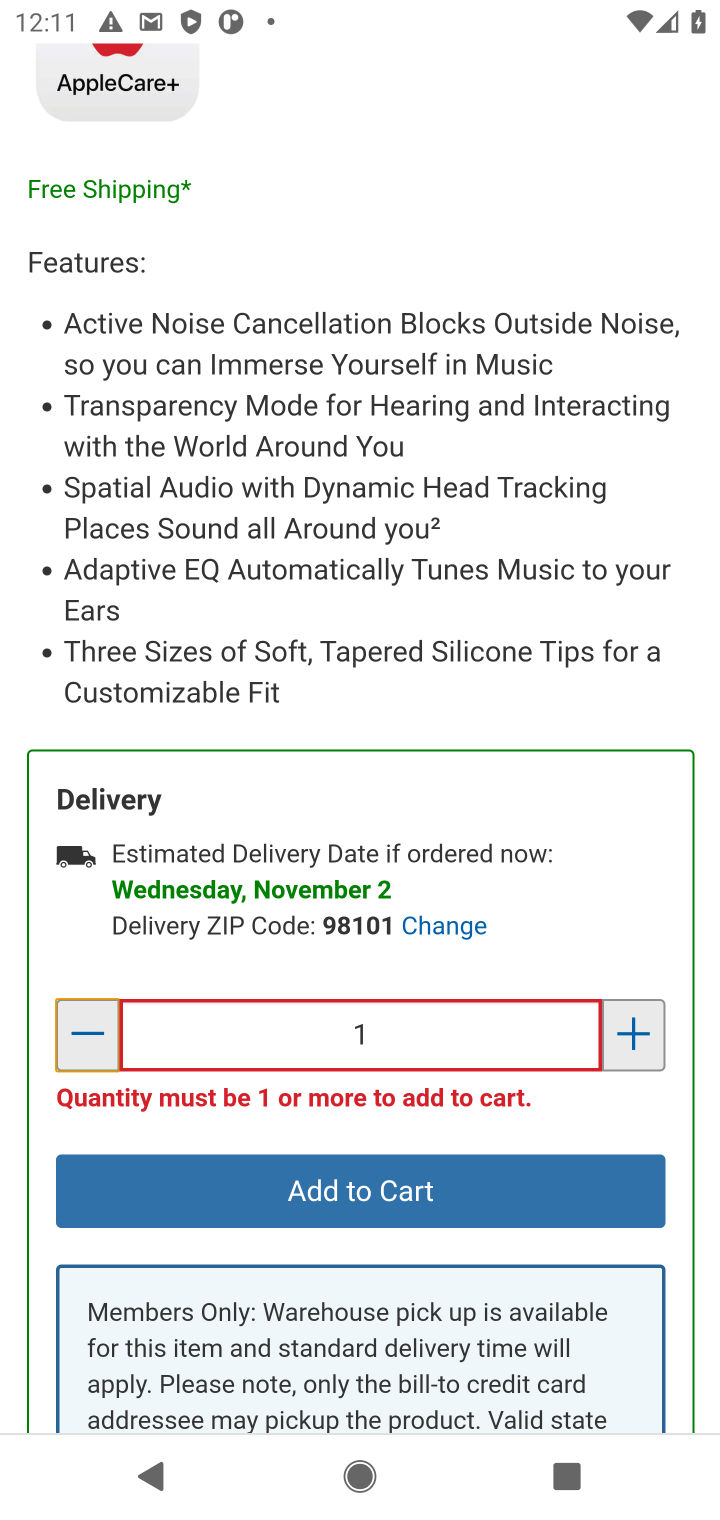
Step 25: drag from (450, 494) to (354, 1207)
Your task to perform on an android device: Clear the cart on costco.com. Search for "jbl flip 4" on costco.com, select the first entry, add it to the cart, then select checkout. Image 26: 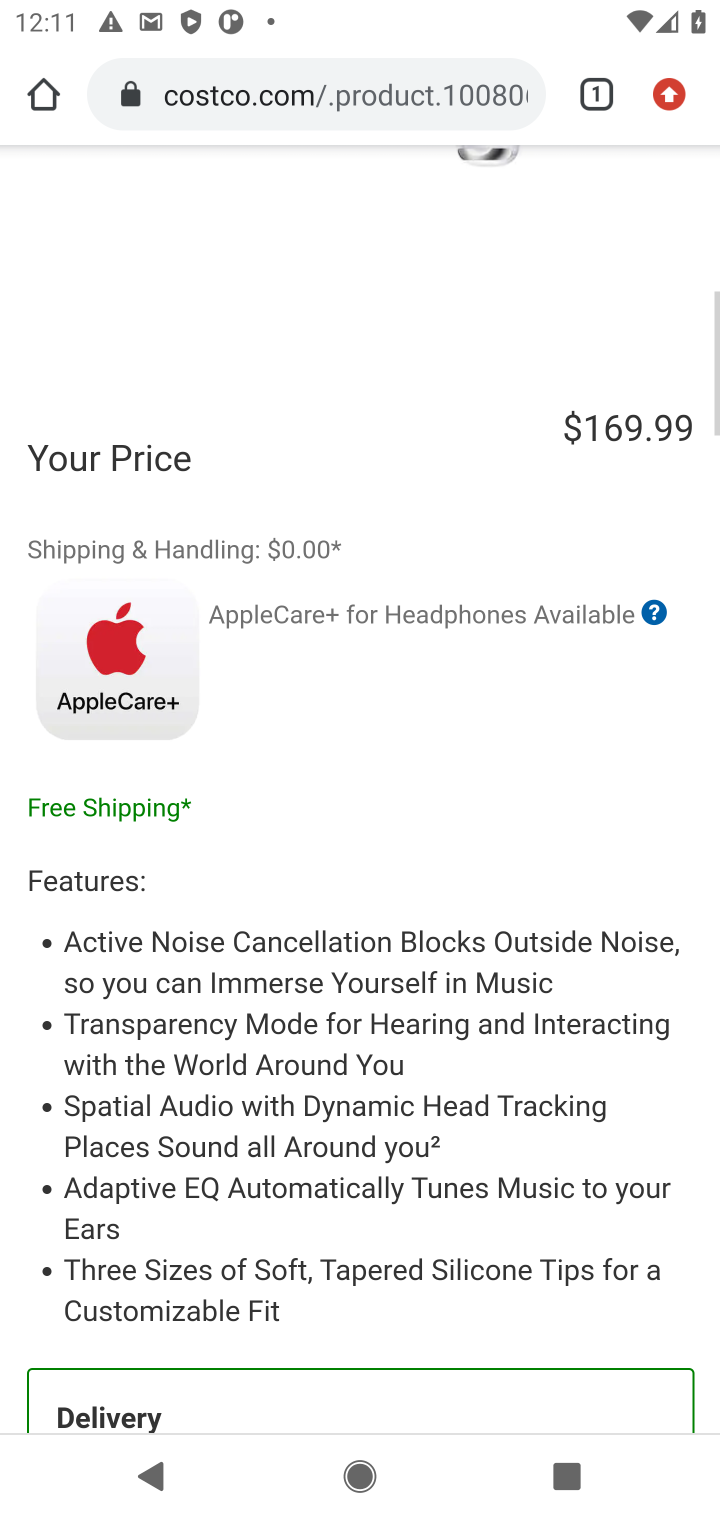
Step 26: drag from (378, 829) to (366, 910)
Your task to perform on an android device: Clear the cart on costco.com. Search for "jbl flip 4" on costco.com, select the first entry, add it to the cart, then select checkout. Image 27: 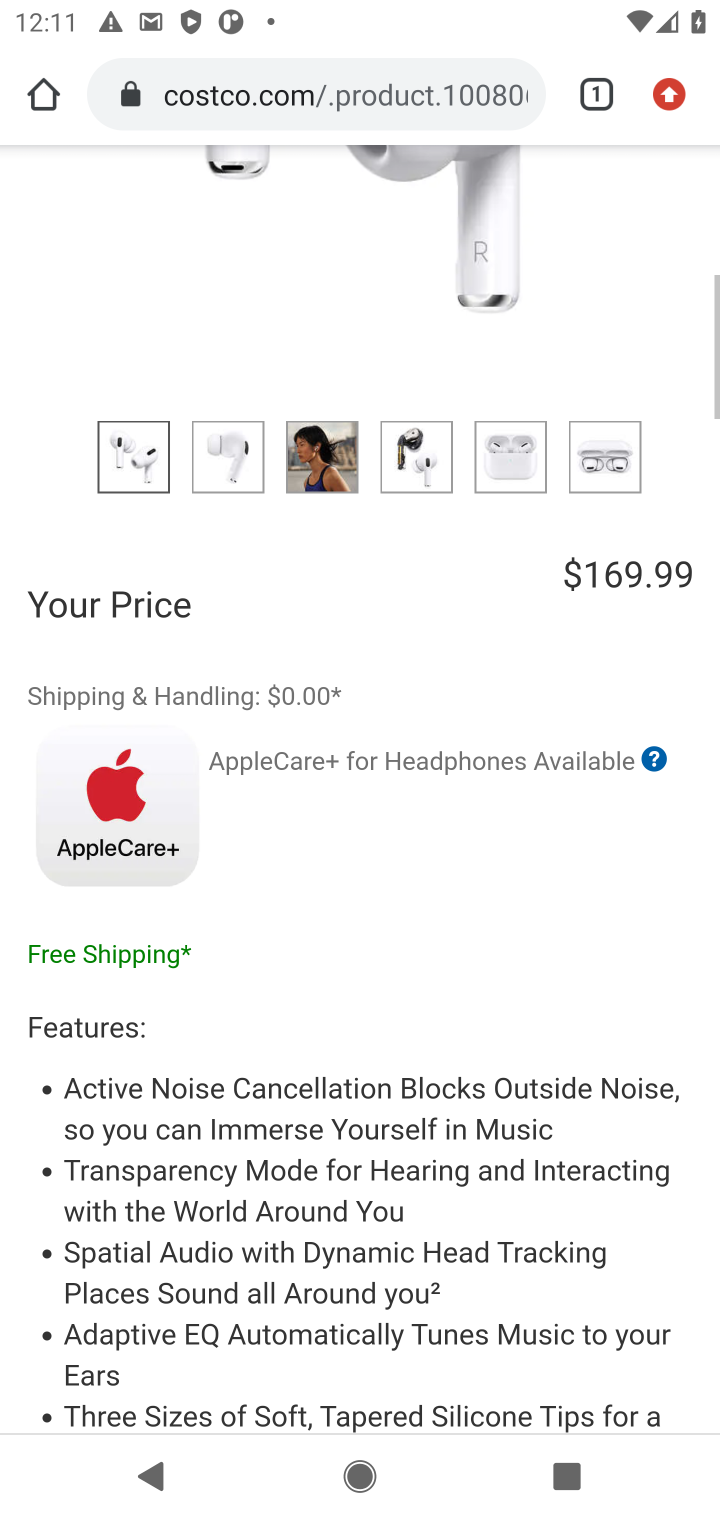
Step 27: drag from (532, 424) to (457, 1011)
Your task to perform on an android device: Clear the cart on costco.com. Search for "jbl flip 4" on costco.com, select the first entry, add it to the cart, then select checkout. Image 28: 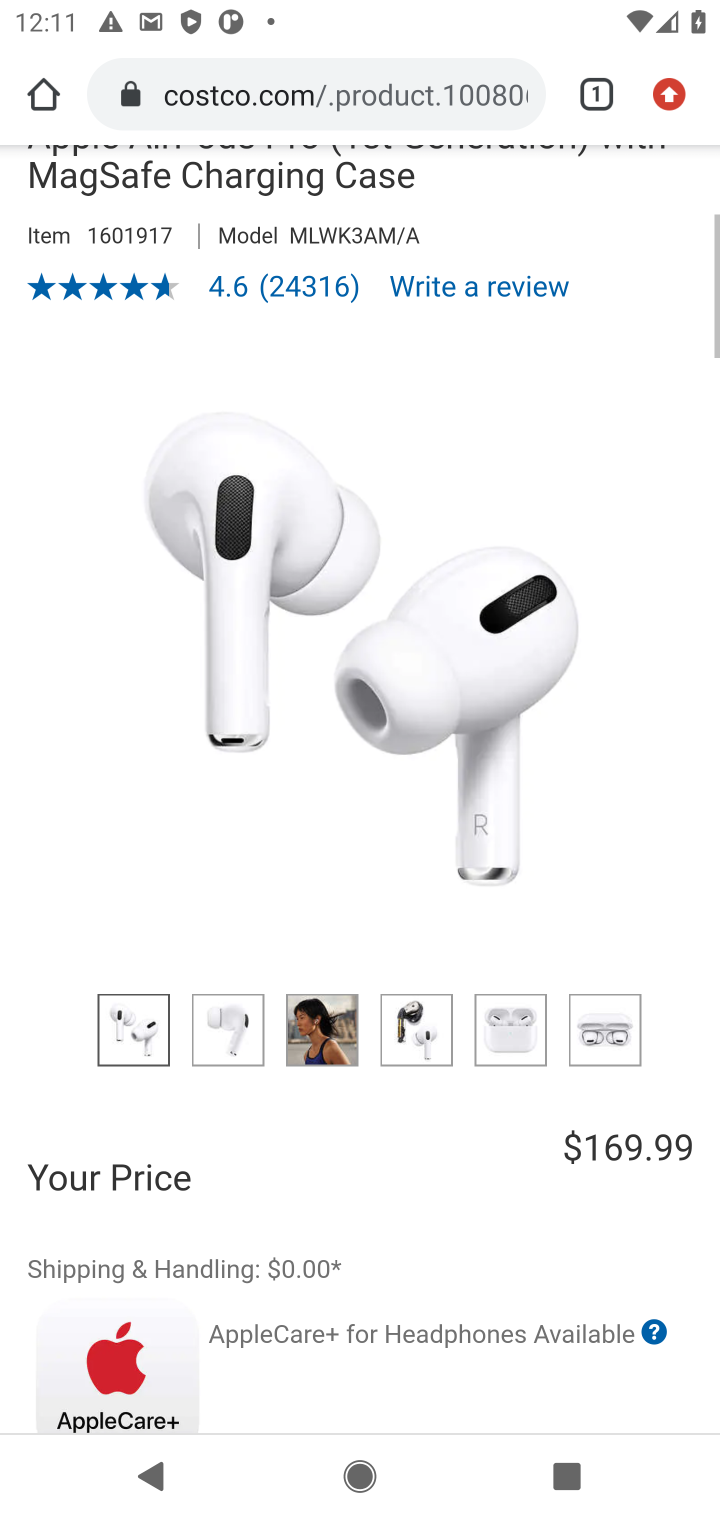
Step 28: drag from (551, 492) to (550, 950)
Your task to perform on an android device: Clear the cart on costco.com. Search for "jbl flip 4" on costco.com, select the first entry, add it to the cart, then select checkout. Image 29: 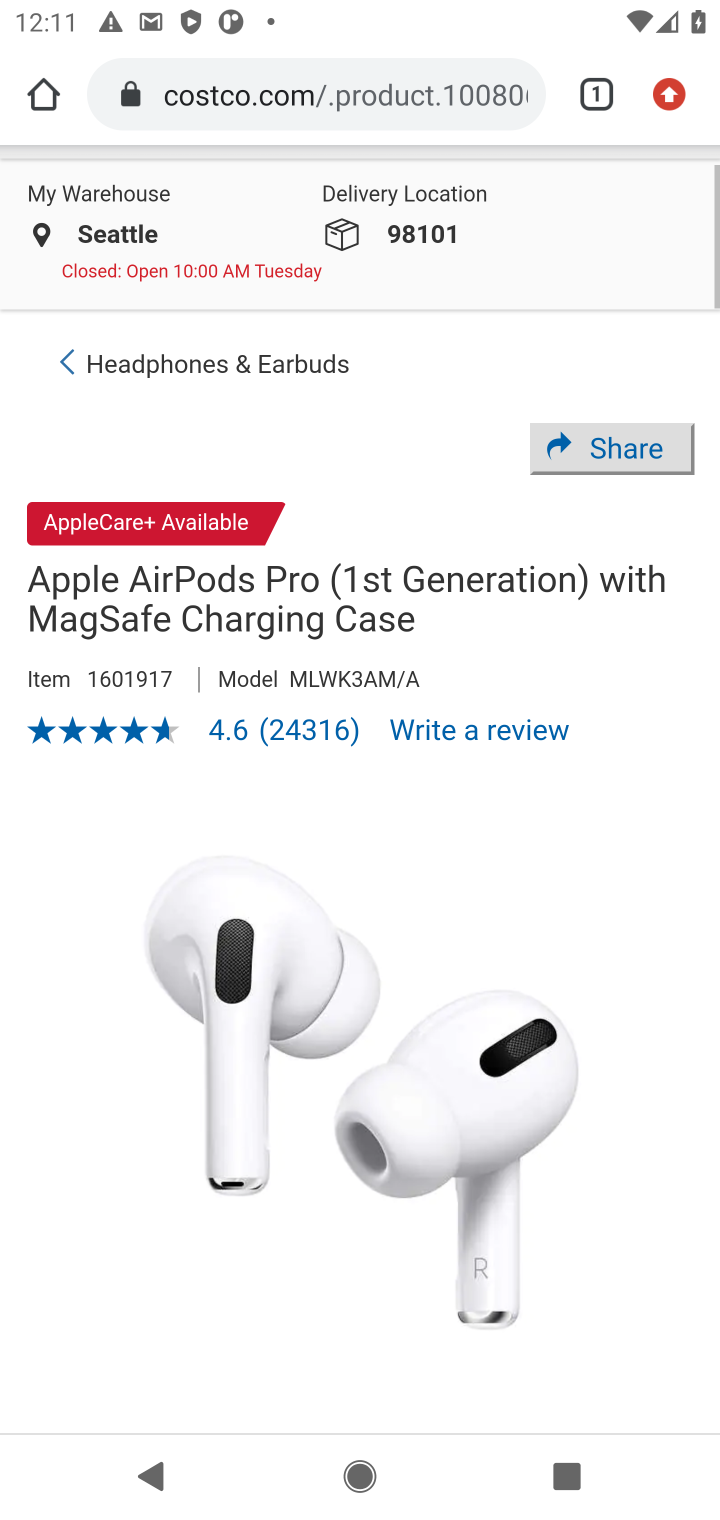
Step 29: drag from (583, 464) to (557, 917)
Your task to perform on an android device: Clear the cart on costco.com. Search for "jbl flip 4" on costco.com, select the first entry, add it to the cart, then select checkout. Image 30: 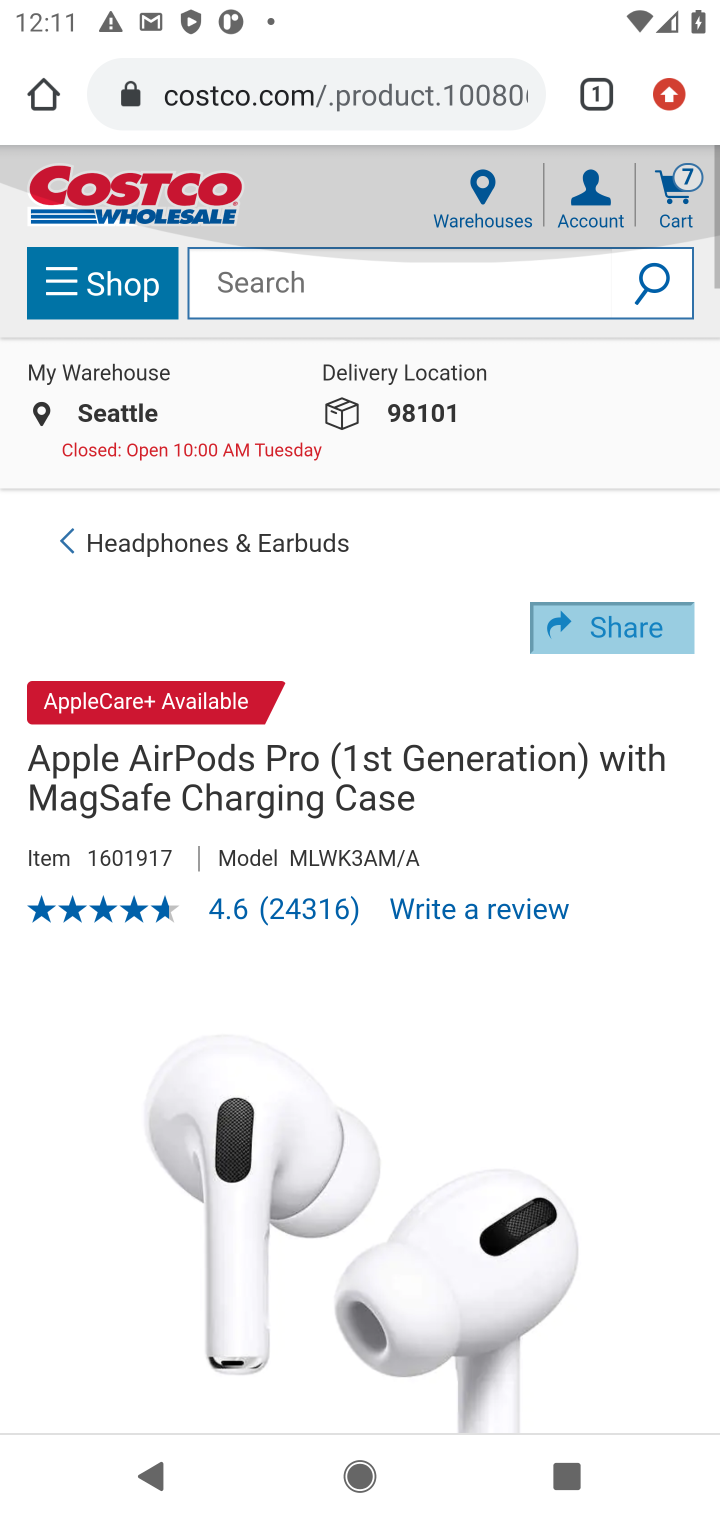
Step 30: drag from (628, 604) to (632, 862)
Your task to perform on an android device: Clear the cart on costco.com. Search for "jbl flip 4" on costco.com, select the first entry, add it to the cart, then select checkout. Image 31: 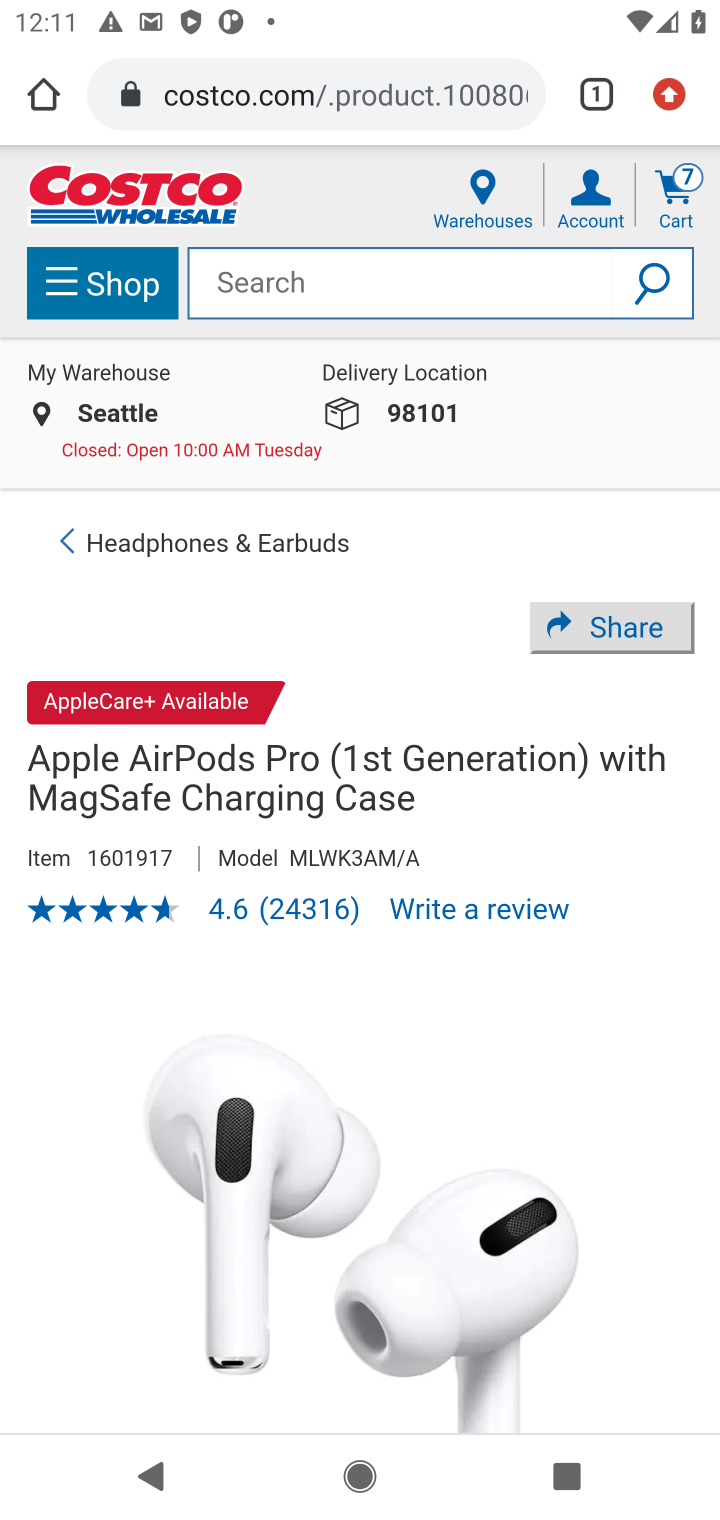
Step 31: click (690, 192)
Your task to perform on an android device: Clear the cart on costco.com. Search for "jbl flip 4" on costco.com, select the first entry, add it to the cart, then select checkout. Image 32: 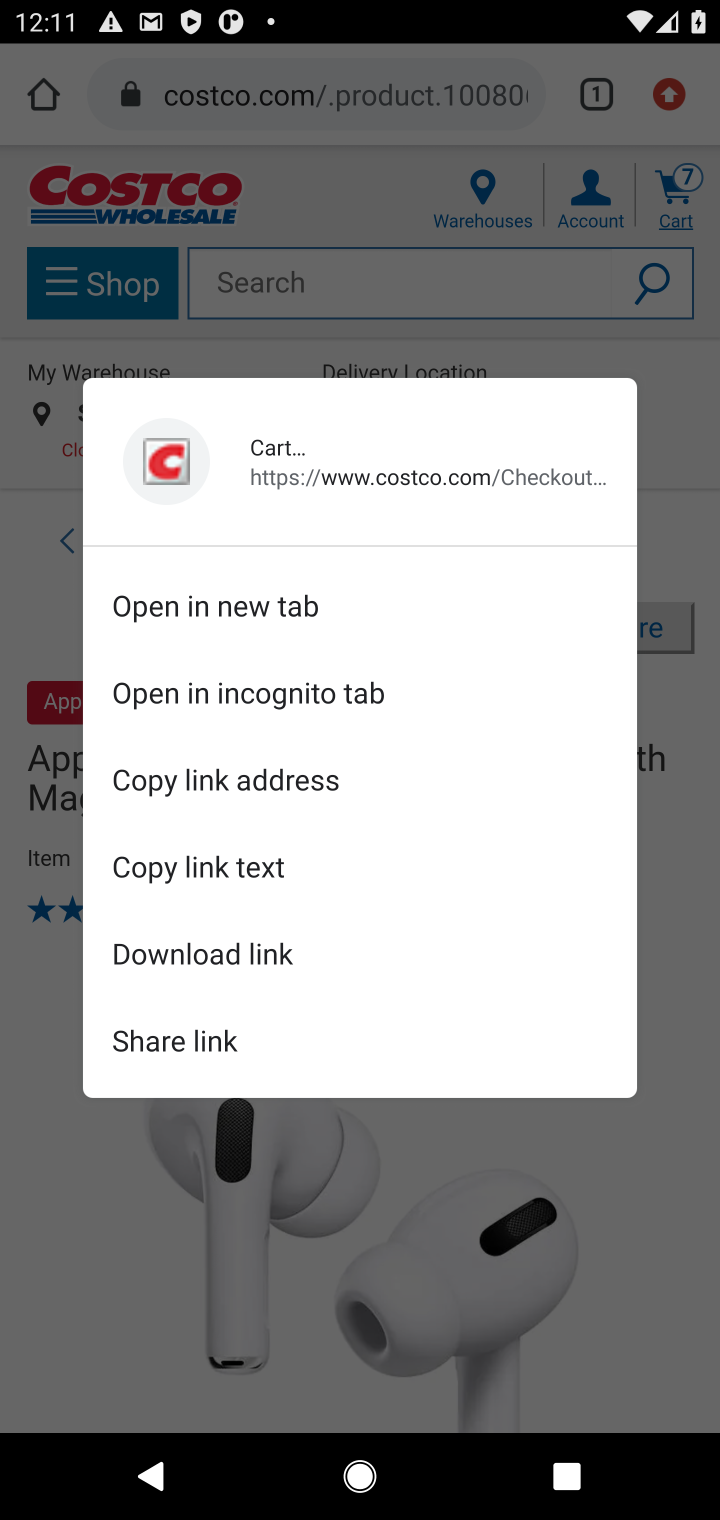
Step 32: click (368, 613)
Your task to perform on an android device: Clear the cart on costco.com. Search for "jbl flip 4" on costco.com, select the first entry, add it to the cart, then select checkout. Image 33: 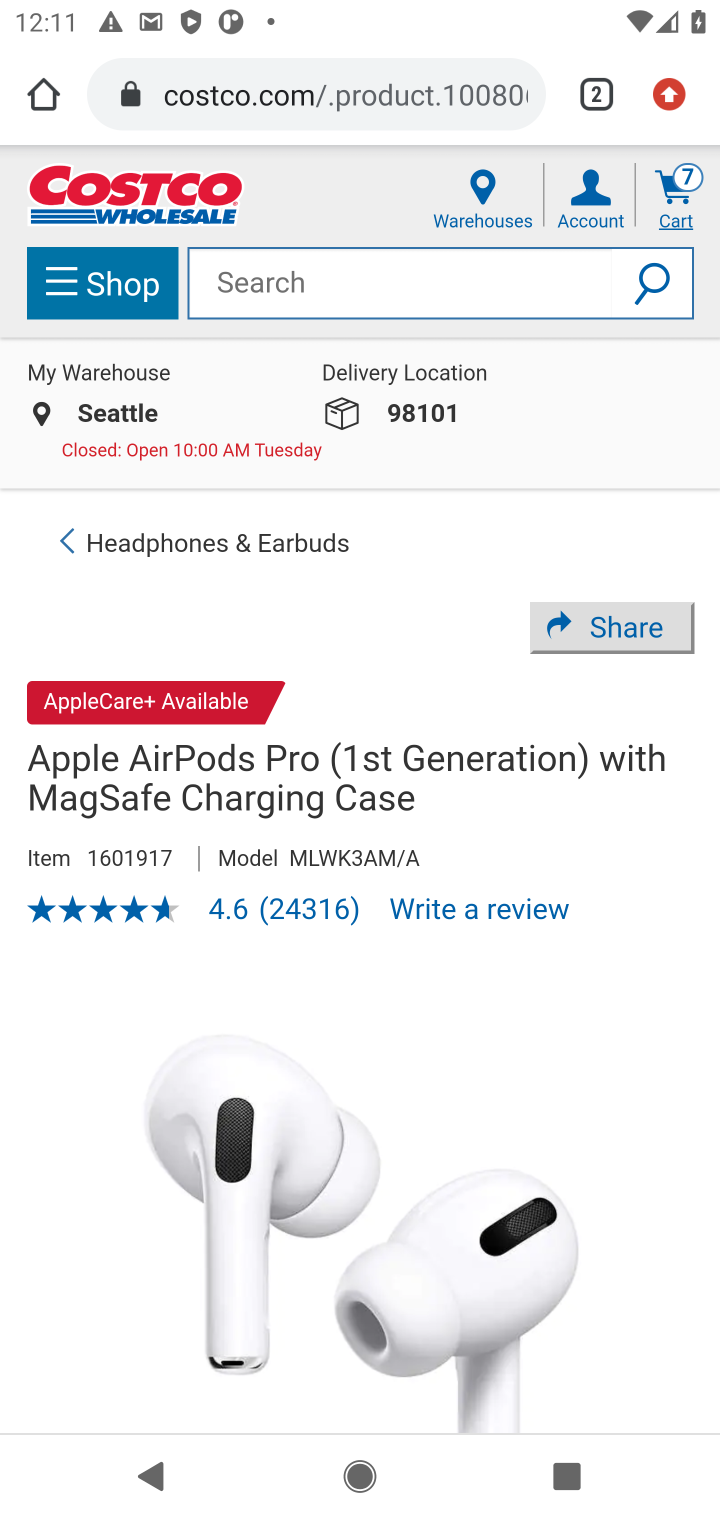
Step 33: click (591, 93)
Your task to perform on an android device: Clear the cart on costco.com. Search for "jbl flip 4" on costco.com, select the first entry, add it to the cart, then select checkout. Image 34: 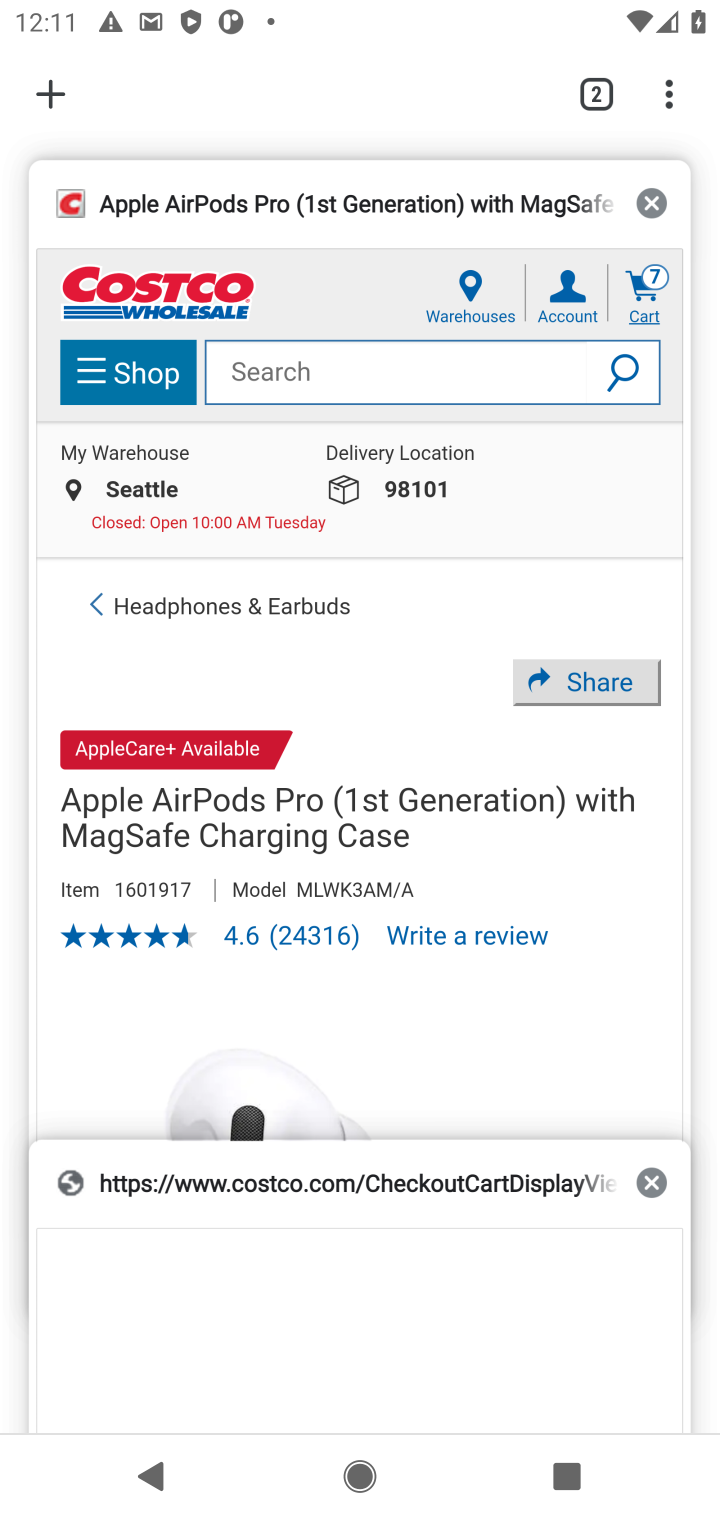
Step 34: click (263, 1198)
Your task to perform on an android device: Clear the cart on costco.com. Search for "jbl flip 4" on costco.com, select the first entry, add it to the cart, then select checkout. Image 35: 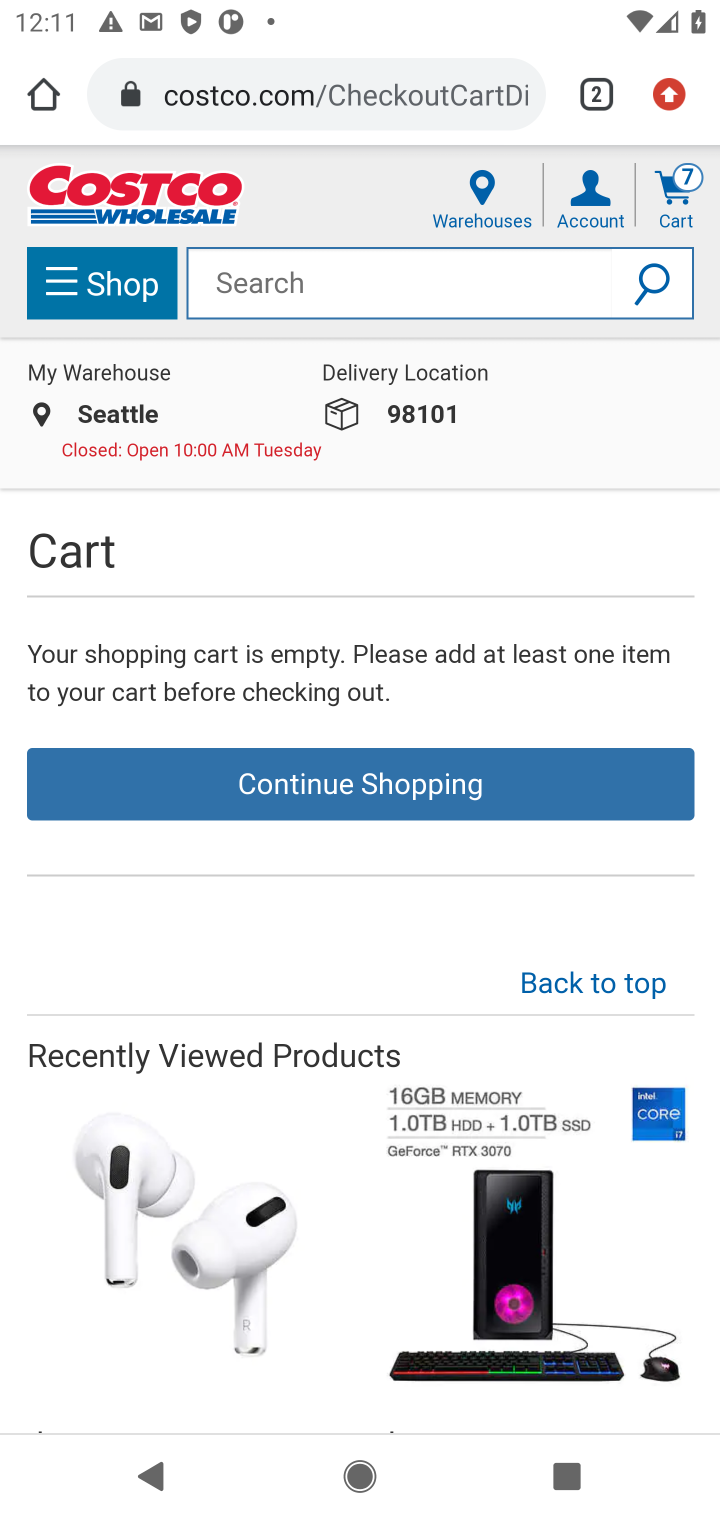
Step 35: click (438, 273)
Your task to perform on an android device: Clear the cart on costco.com. Search for "jbl flip 4" on costco.com, select the first entry, add it to the cart, then select checkout. Image 36: 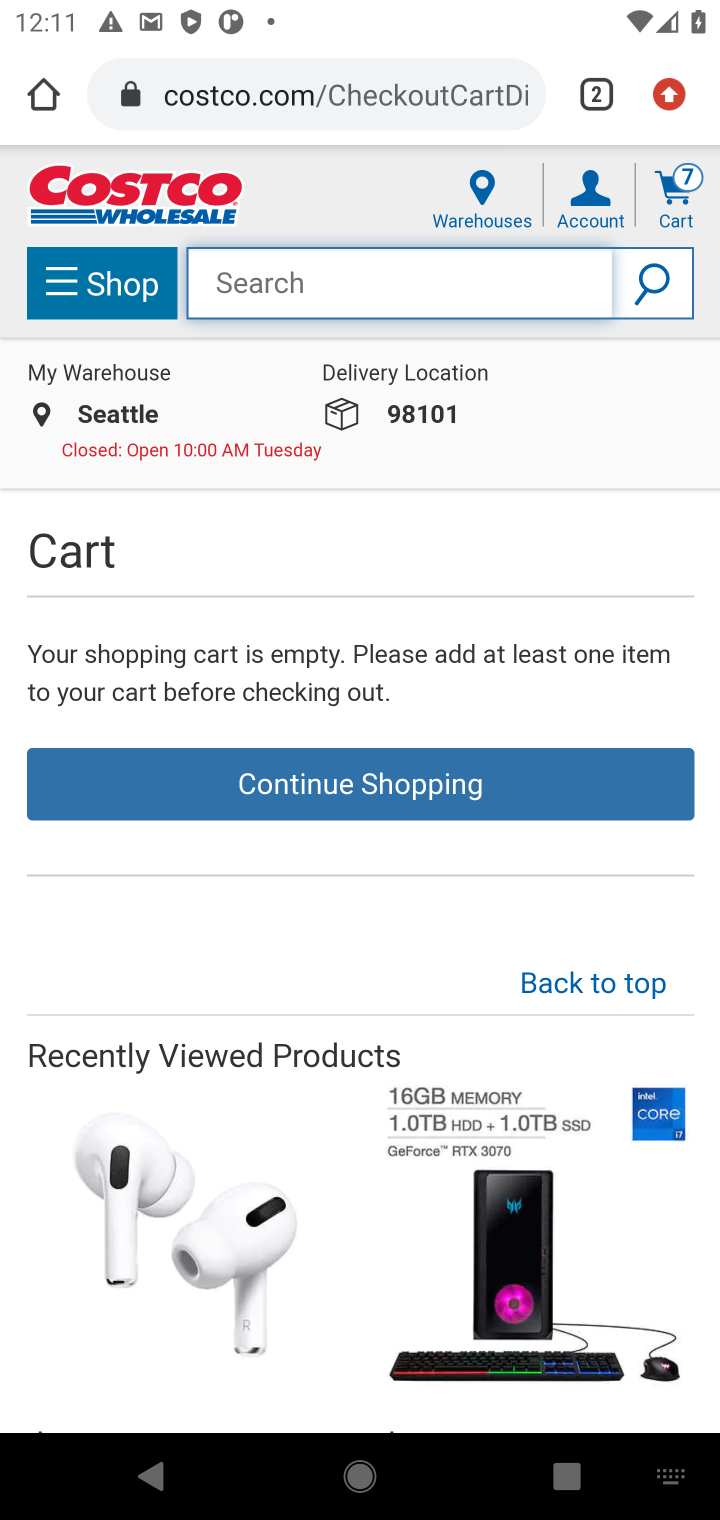
Step 36: type "jbl flip 4"
Your task to perform on an android device: Clear the cart on costco.com. Search for "jbl flip 4" on costco.com, select the first entry, add it to the cart, then select checkout. Image 37: 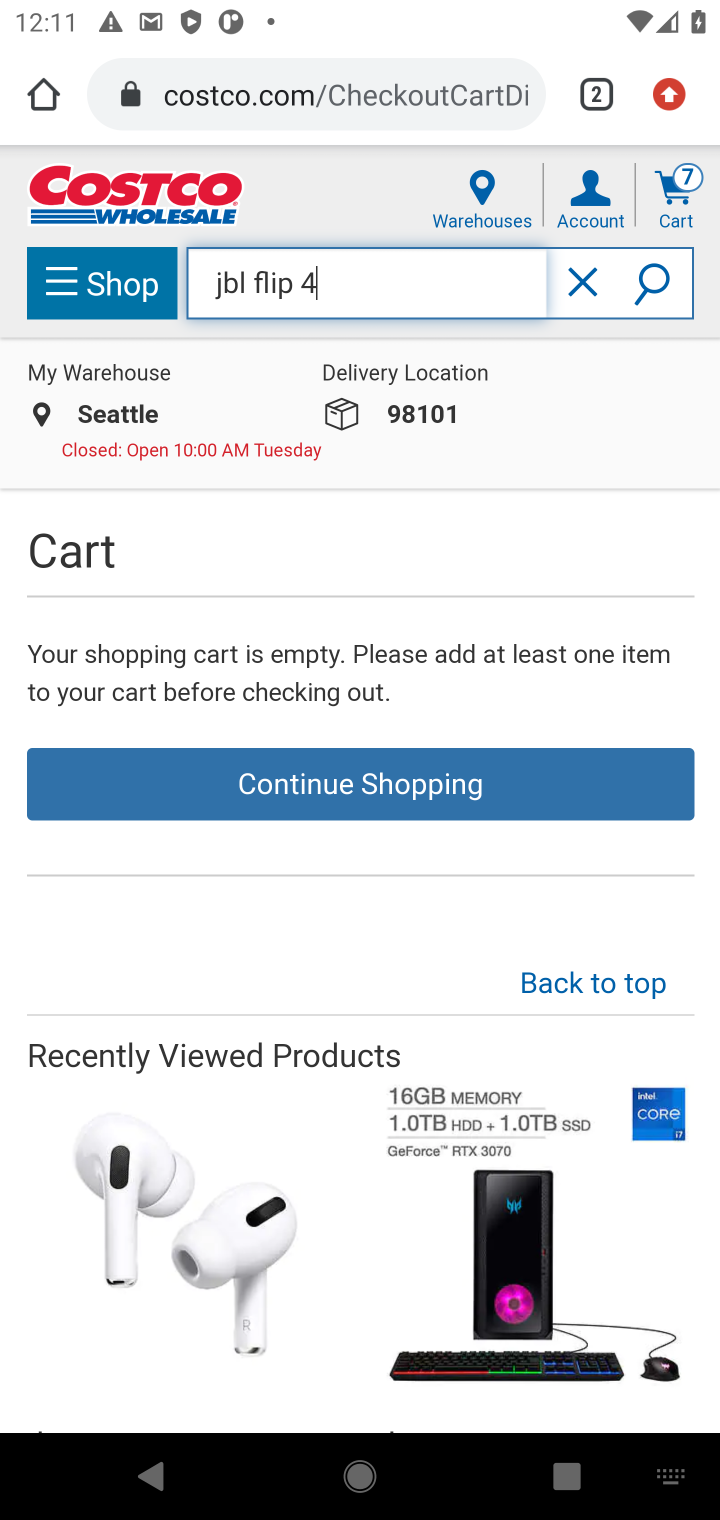
Step 37: type ""
Your task to perform on an android device: Clear the cart on costco.com. Search for "jbl flip 4" on costco.com, select the first entry, add it to the cart, then select checkout. Image 38: 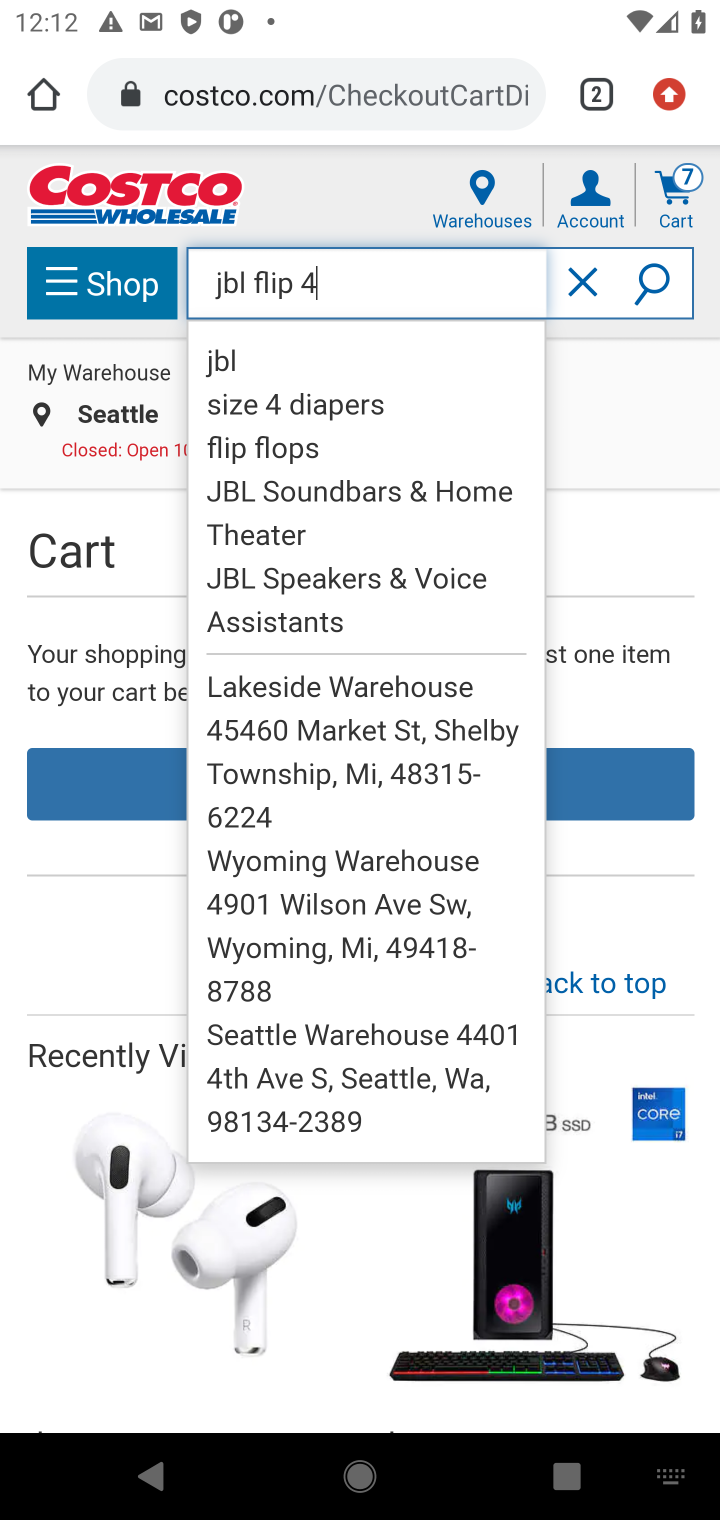
Step 38: click (655, 298)
Your task to perform on an android device: Clear the cart on costco.com. Search for "jbl flip 4" on costco.com, select the first entry, add it to the cart, then select checkout. Image 39: 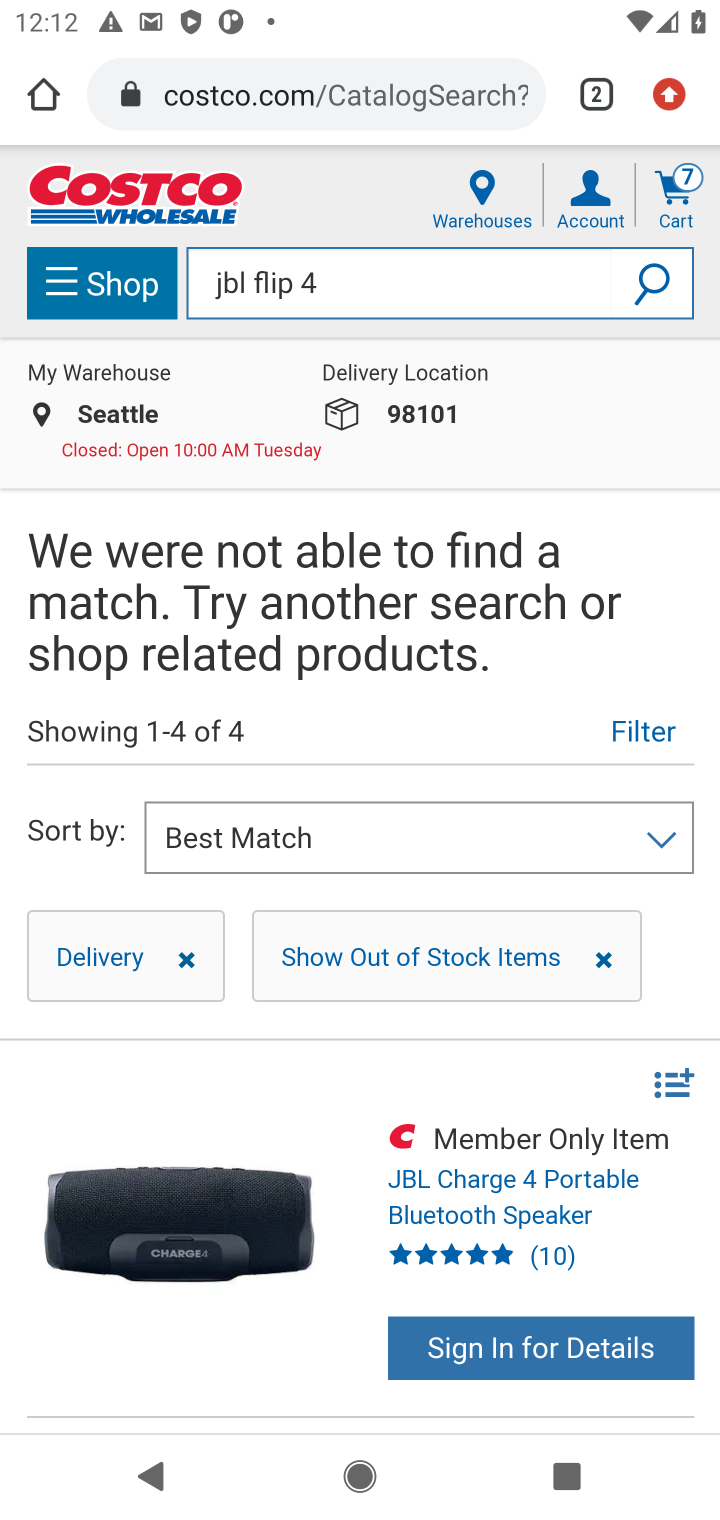
Step 39: drag from (437, 1222) to (491, 819)
Your task to perform on an android device: Clear the cart on costco.com. Search for "jbl flip 4" on costco.com, select the first entry, add it to the cart, then select checkout. Image 40: 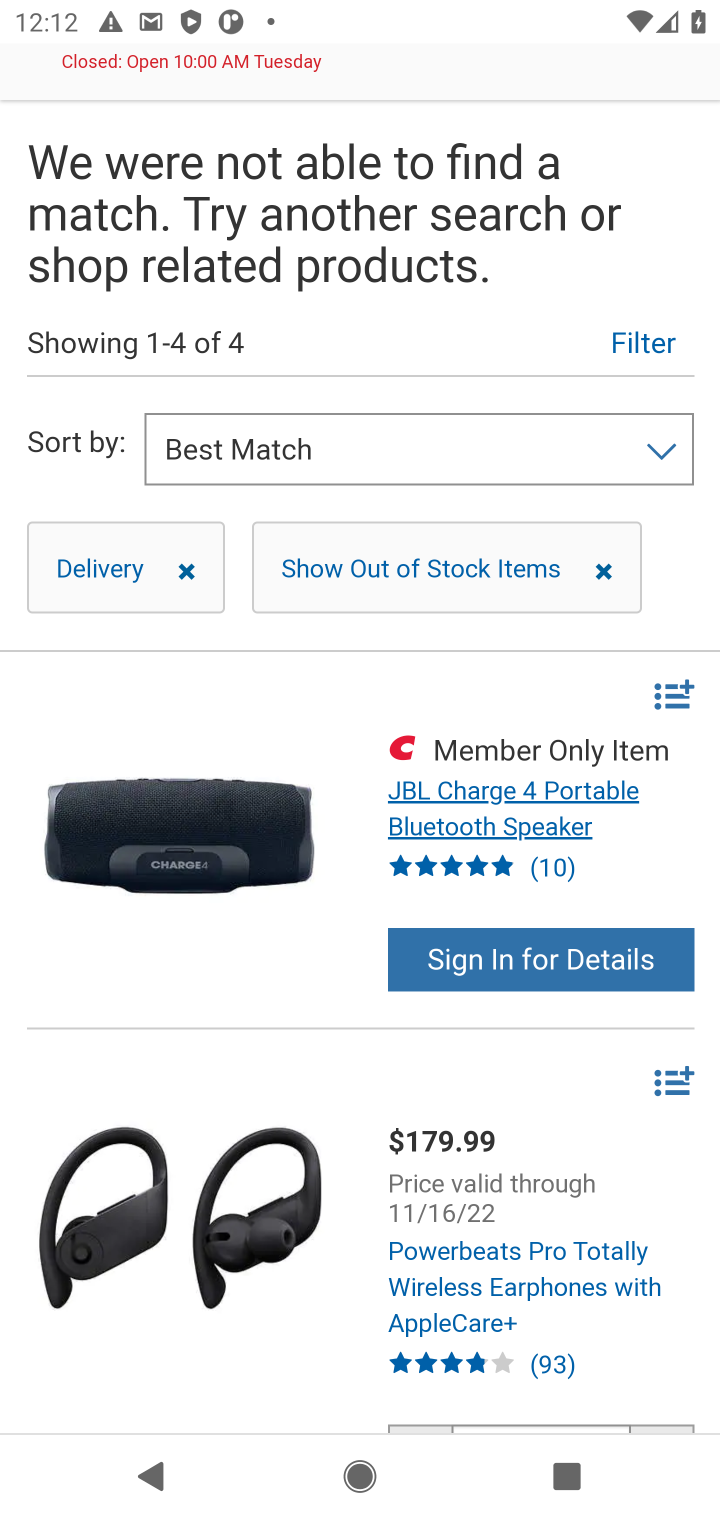
Step 40: click (503, 780)
Your task to perform on an android device: Clear the cart on costco.com. Search for "jbl flip 4" on costco.com, select the first entry, add it to the cart, then select checkout. Image 41: 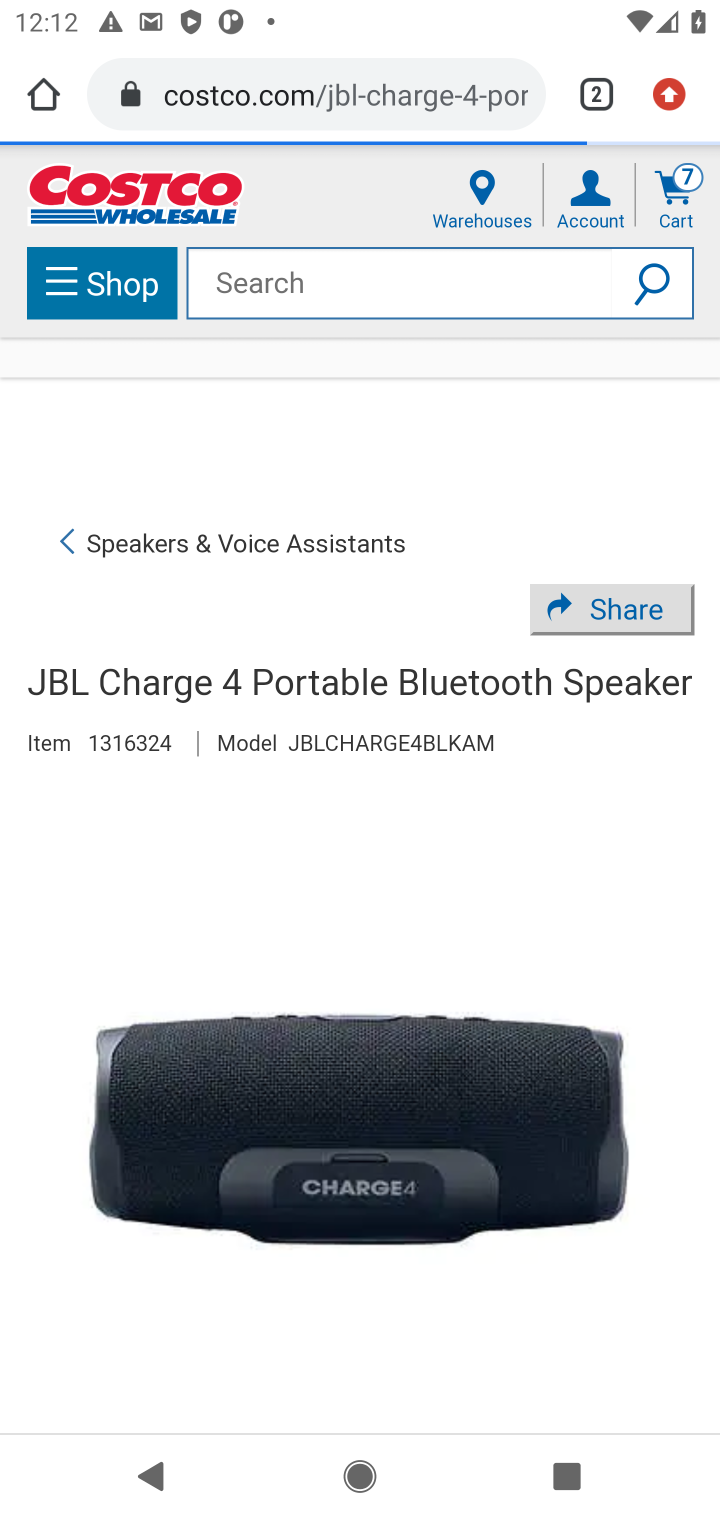
Step 41: drag from (421, 996) to (435, 646)
Your task to perform on an android device: Clear the cart on costco.com. Search for "jbl flip 4" on costco.com, select the first entry, add it to the cart, then select checkout. Image 42: 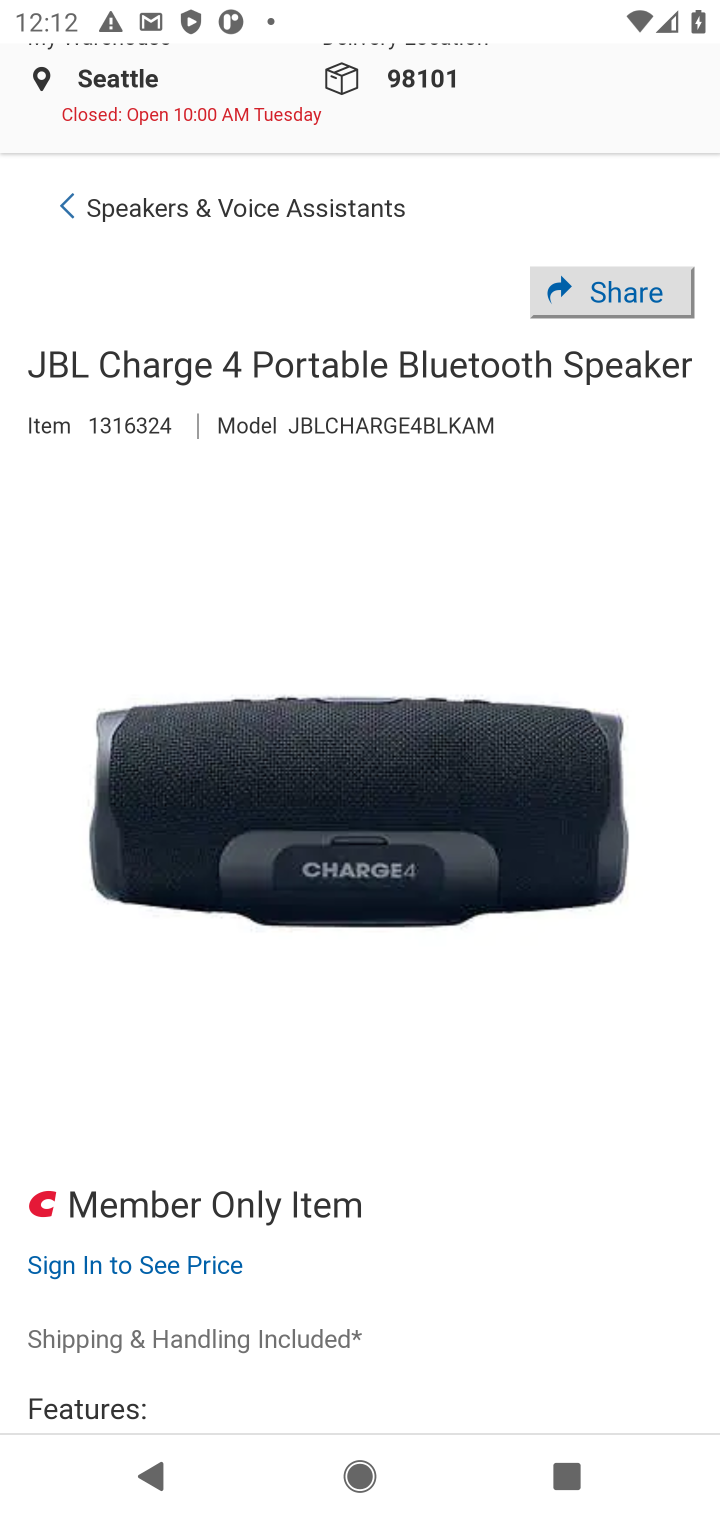
Step 42: drag from (429, 811) to (466, 607)
Your task to perform on an android device: Clear the cart on costco.com. Search for "jbl flip 4" on costco.com, select the first entry, add it to the cart, then select checkout. Image 43: 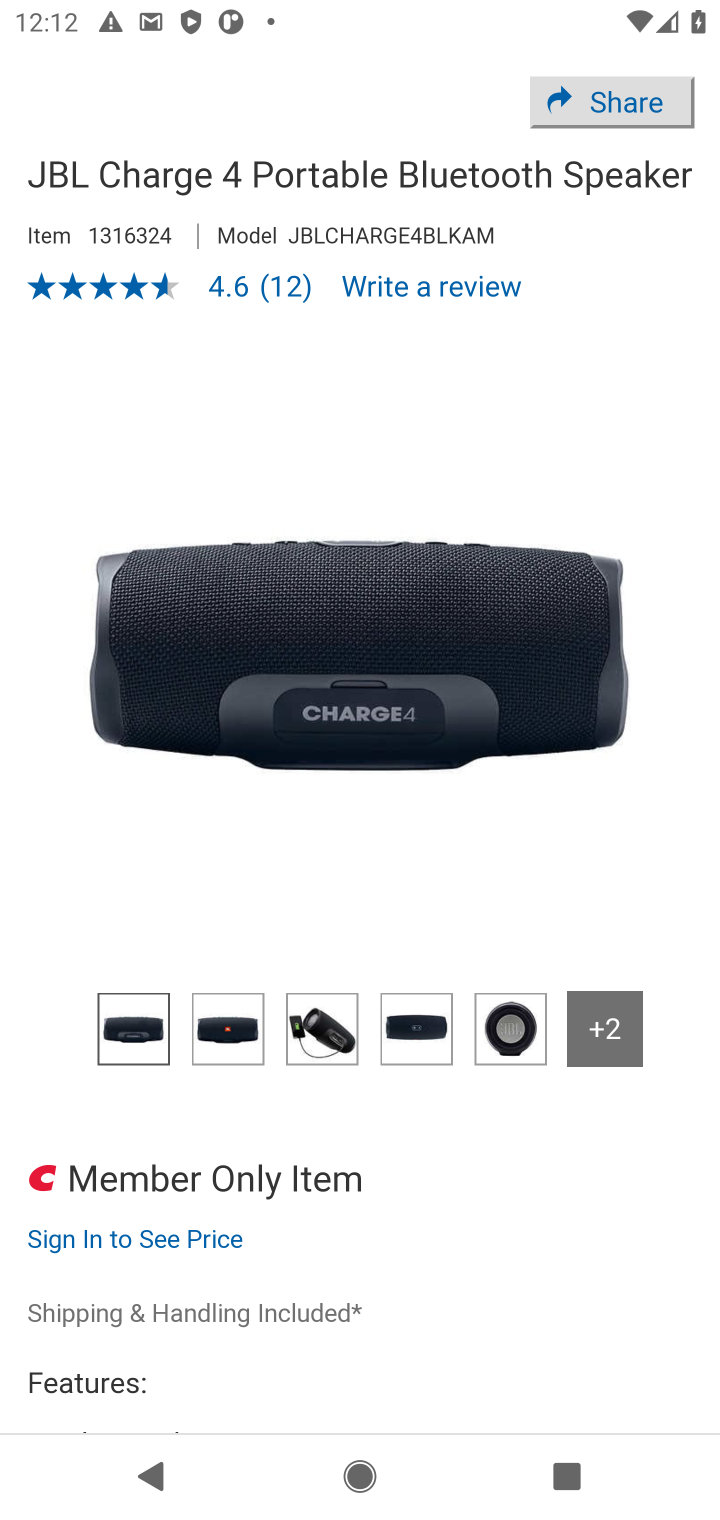
Step 43: drag from (450, 498) to (456, 339)
Your task to perform on an android device: Clear the cart on costco.com. Search for "jbl flip 4" on costco.com, select the first entry, add it to the cart, then select checkout. Image 44: 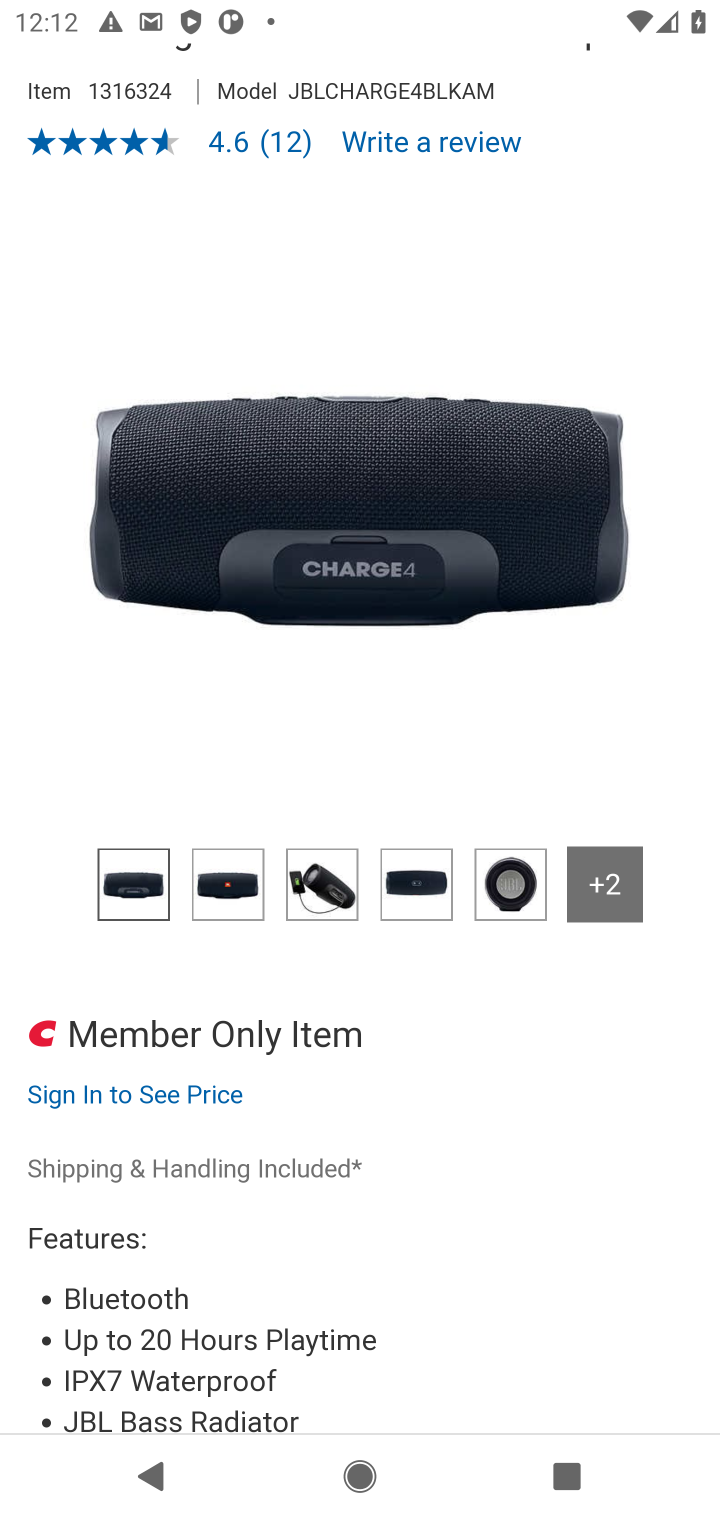
Step 44: drag from (316, 831) to (353, 321)
Your task to perform on an android device: Clear the cart on costco.com. Search for "jbl flip 4" on costco.com, select the first entry, add it to the cart, then select checkout. Image 45: 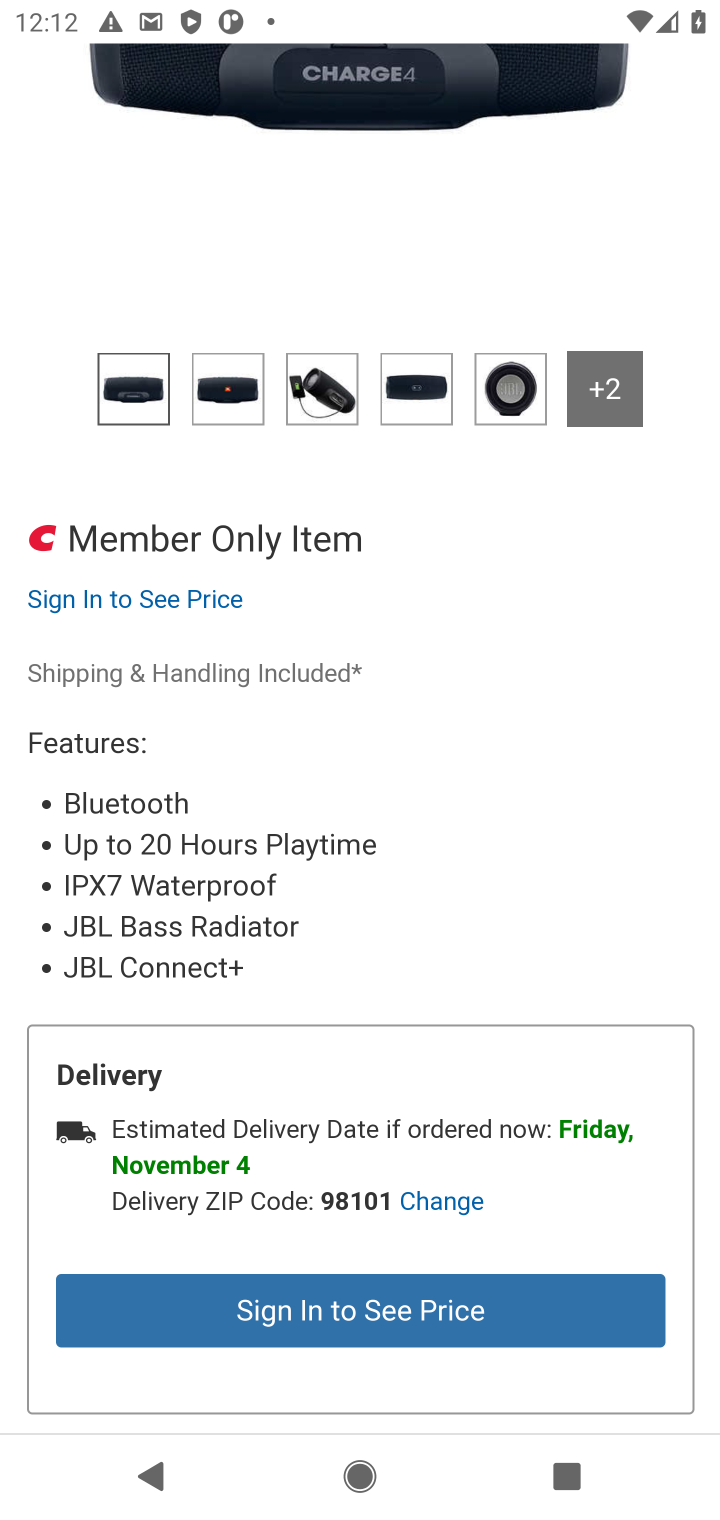
Step 45: drag from (342, 1261) to (402, 545)
Your task to perform on an android device: Clear the cart on costco.com. Search for "jbl flip 4" on costco.com, select the first entry, add it to the cart, then select checkout. Image 46: 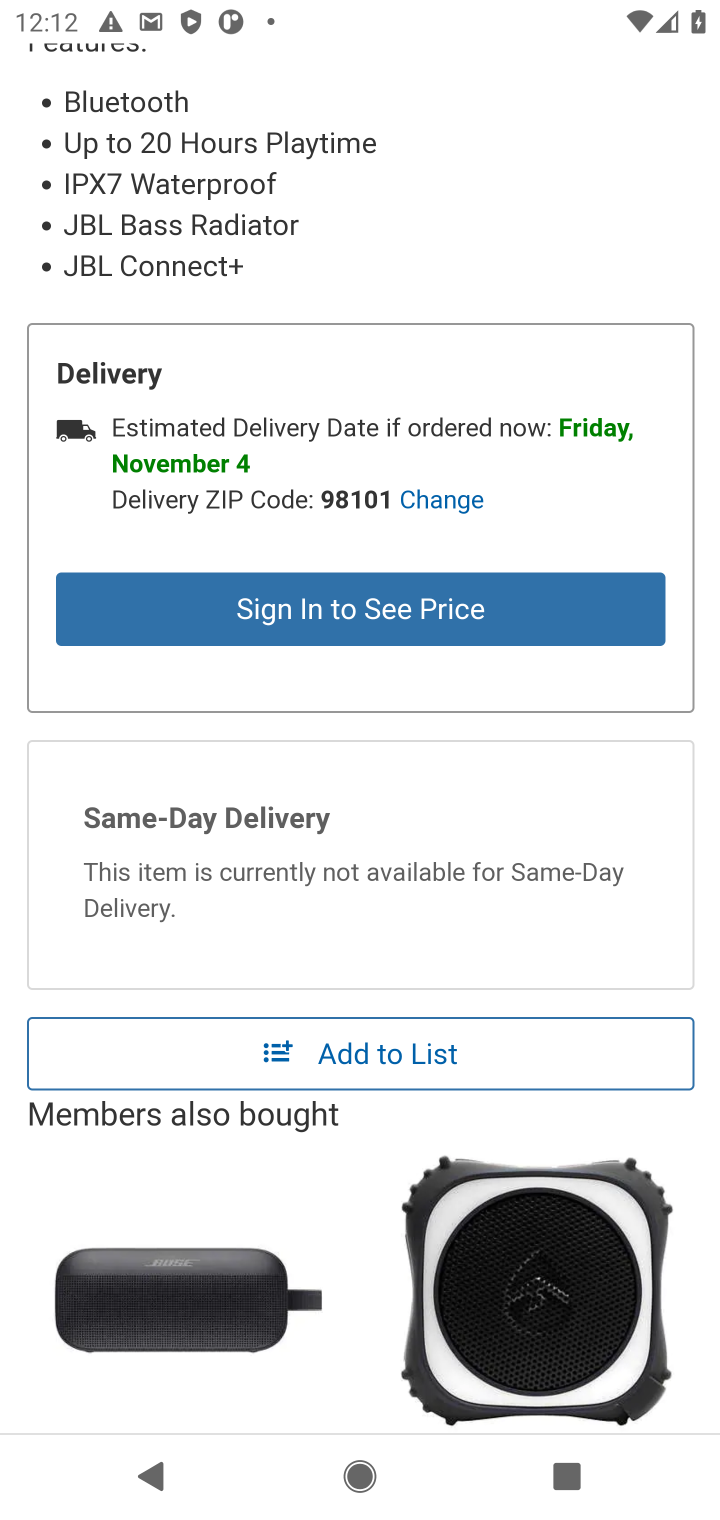
Step 46: drag from (420, 529) to (515, 342)
Your task to perform on an android device: Clear the cart on costco.com. Search for "jbl flip 4" on costco.com, select the first entry, add it to the cart, then select checkout. Image 47: 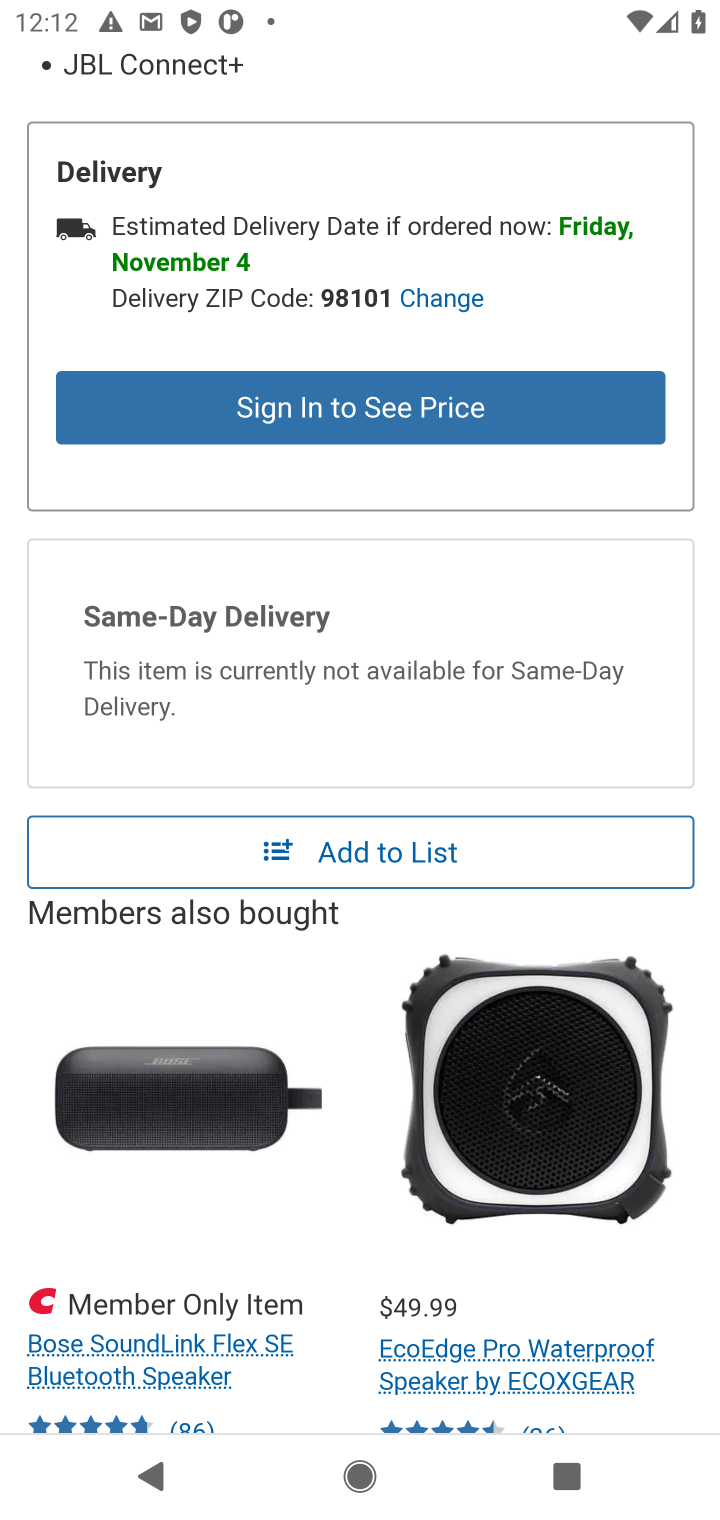
Step 47: click (382, 856)
Your task to perform on an android device: Clear the cart on costco.com. Search for "jbl flip 4" on costco.com, select the first entry, add it to the cart, then select checkout. Image 48: 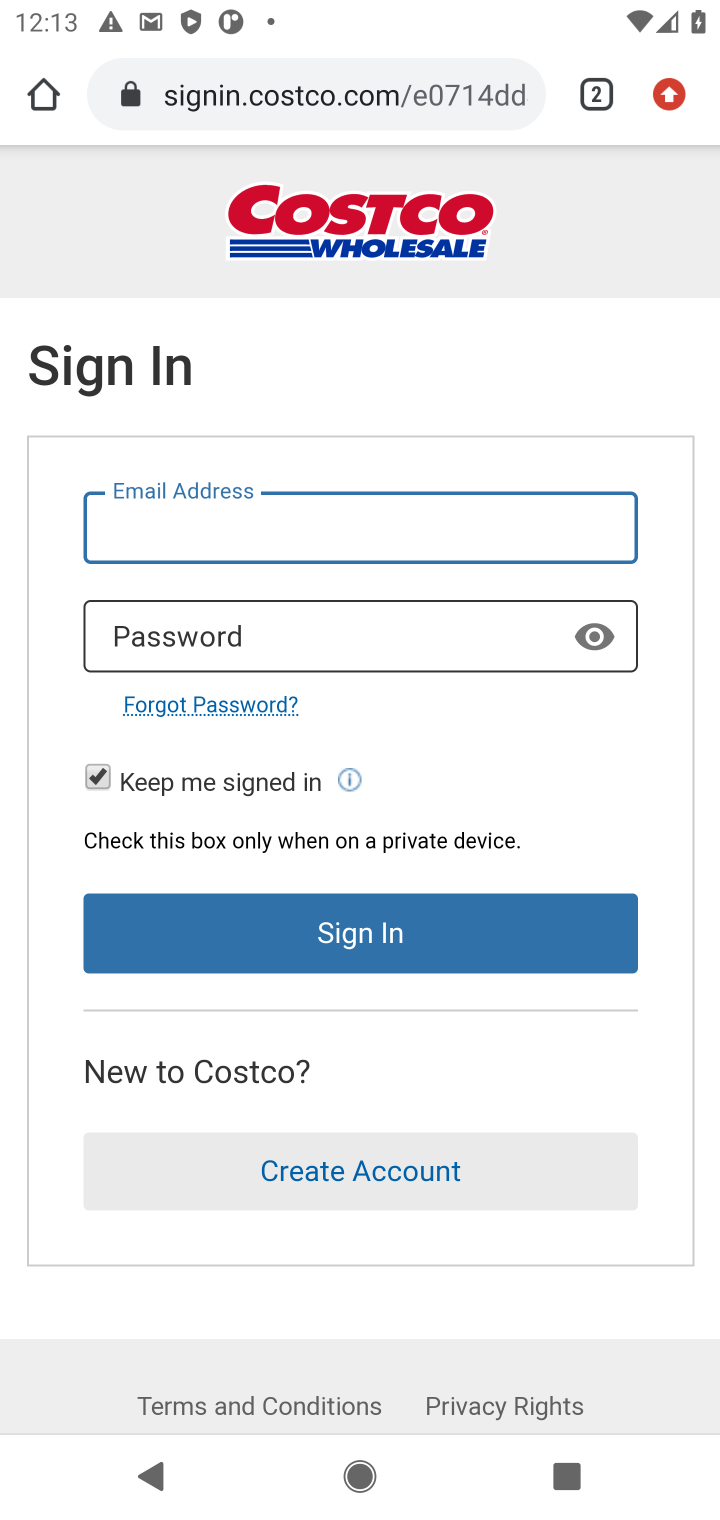
Step 48: task complete